Your task to perform on an android device: Search for the best custom wallets on Etsy. Image 0: 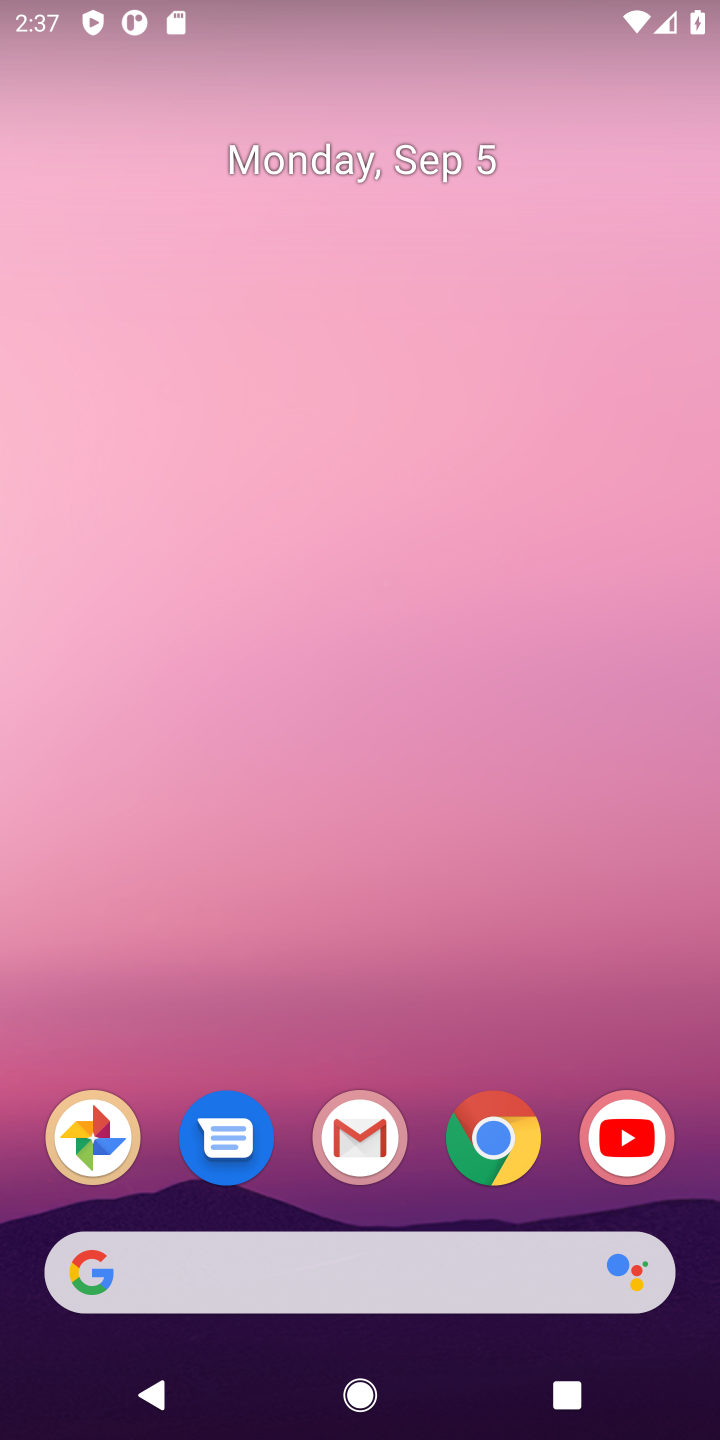
Step 0: click (474, 1146)
Your task to perform on an android device: Search for the best custom wallets on Etsy. Image 1: 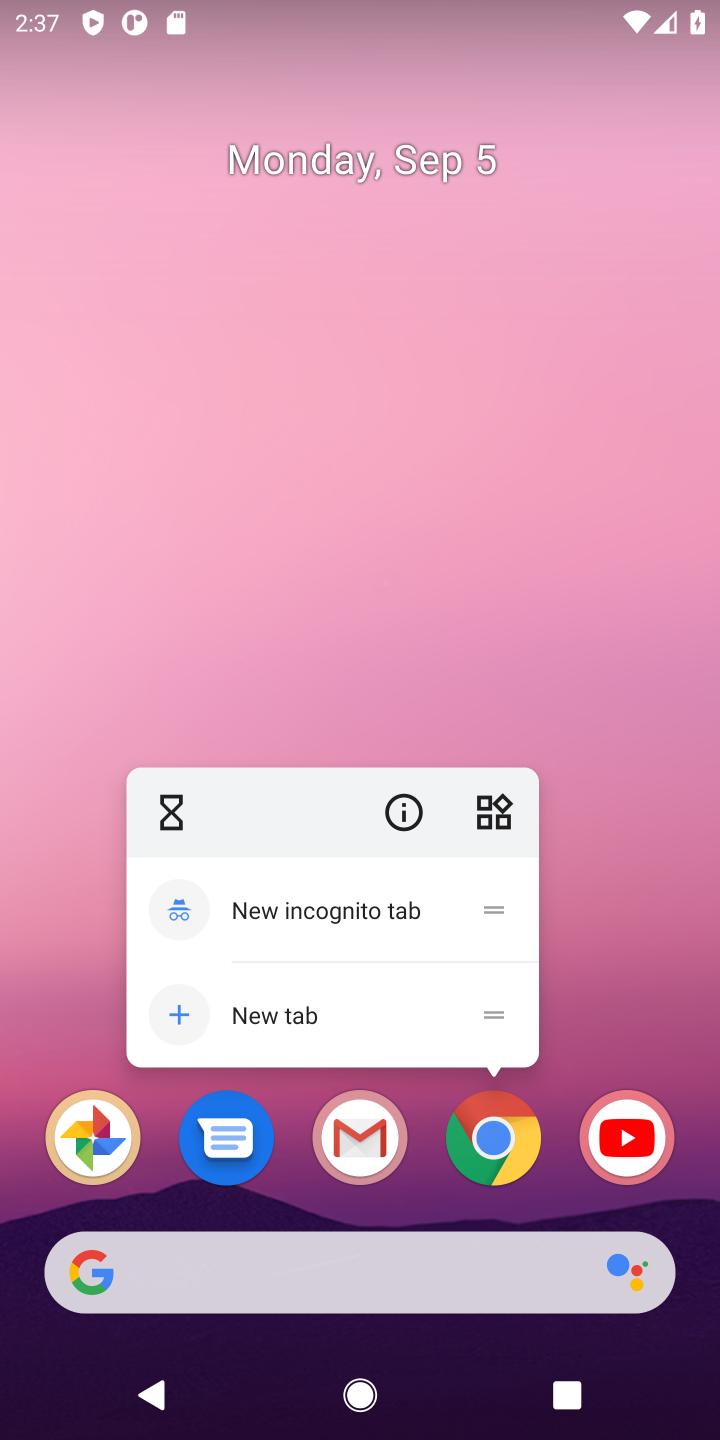
Step 1: click (496, 1156)
Your task to perform on an android device: Search for the best custom wallets on Etsy. Image 2: 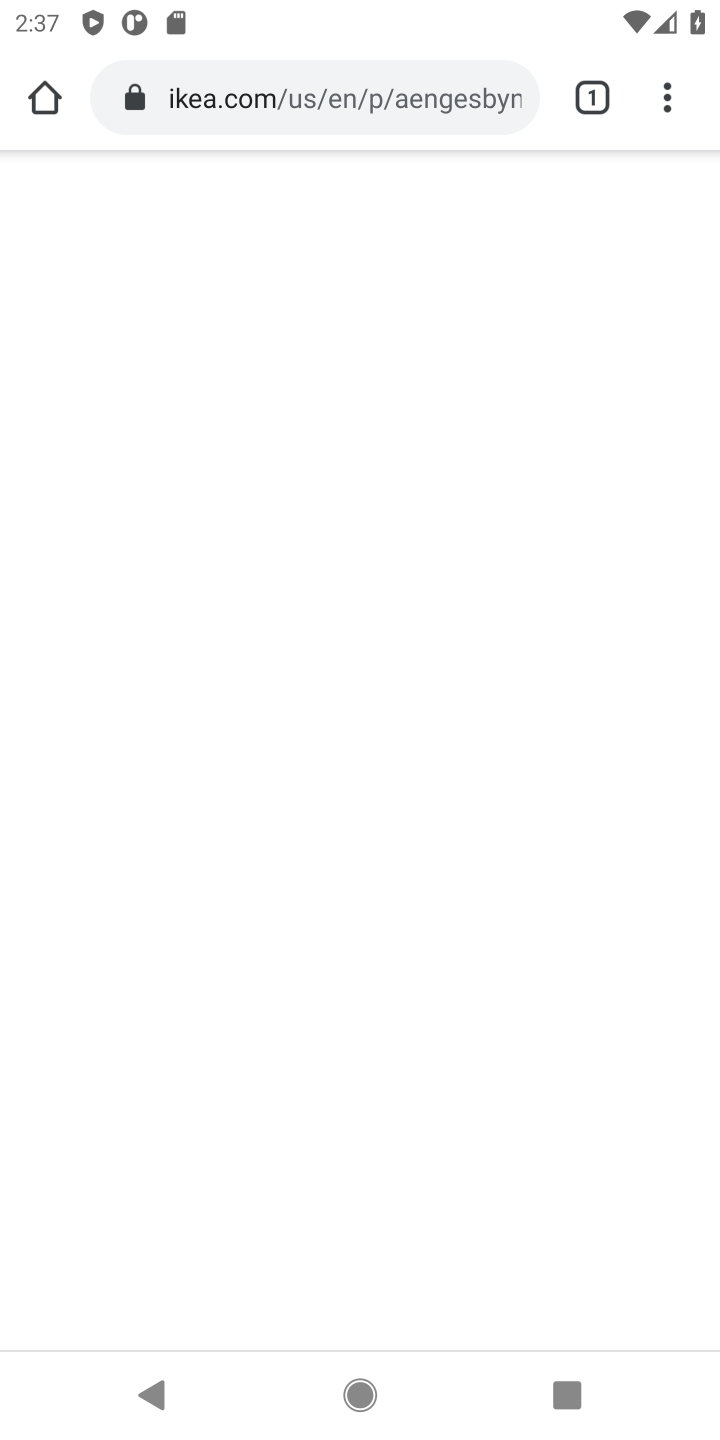
Step 2: click (366, 92)
Your task to perform on an android device: Search for the best custom wallets on Etsy. Image 3: 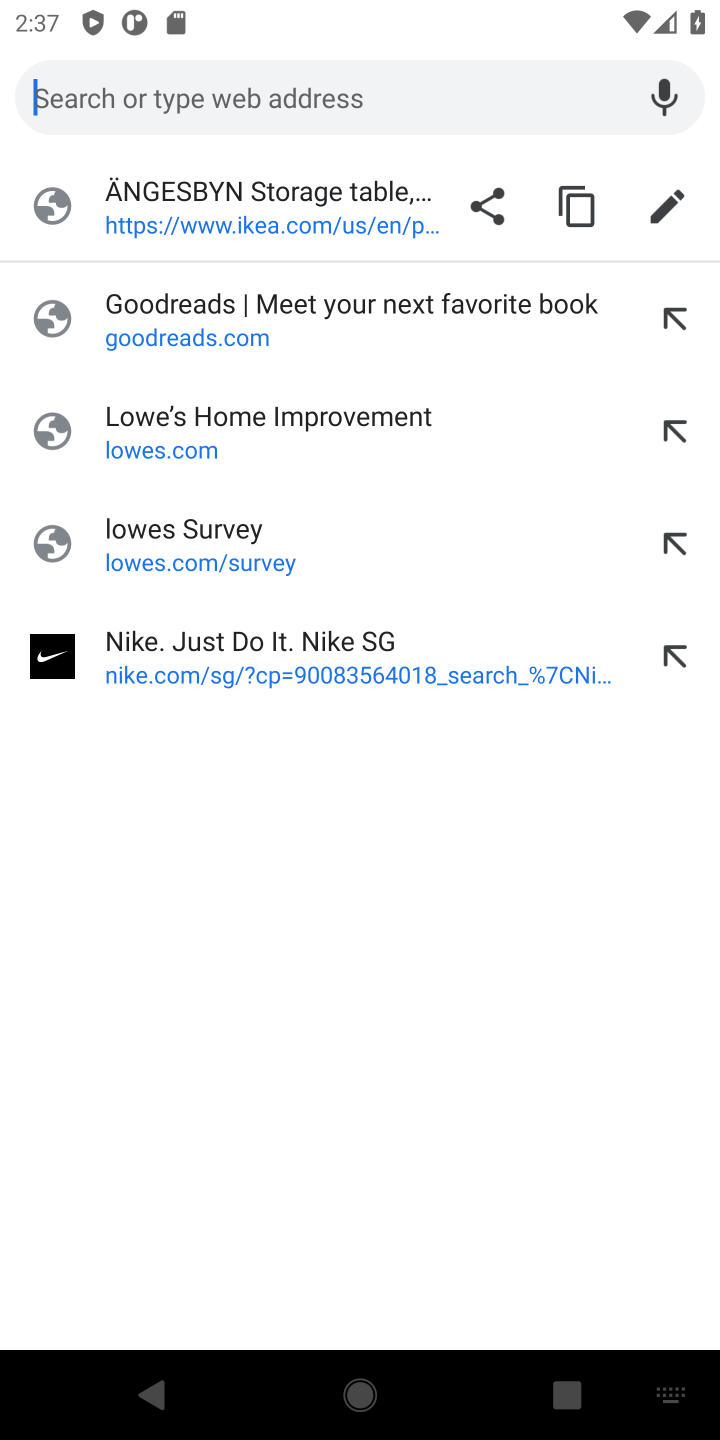
Step 3: type "etsy"
Your task to perform on an android device: Search for the best custom wallets on Etsy. Image 4: 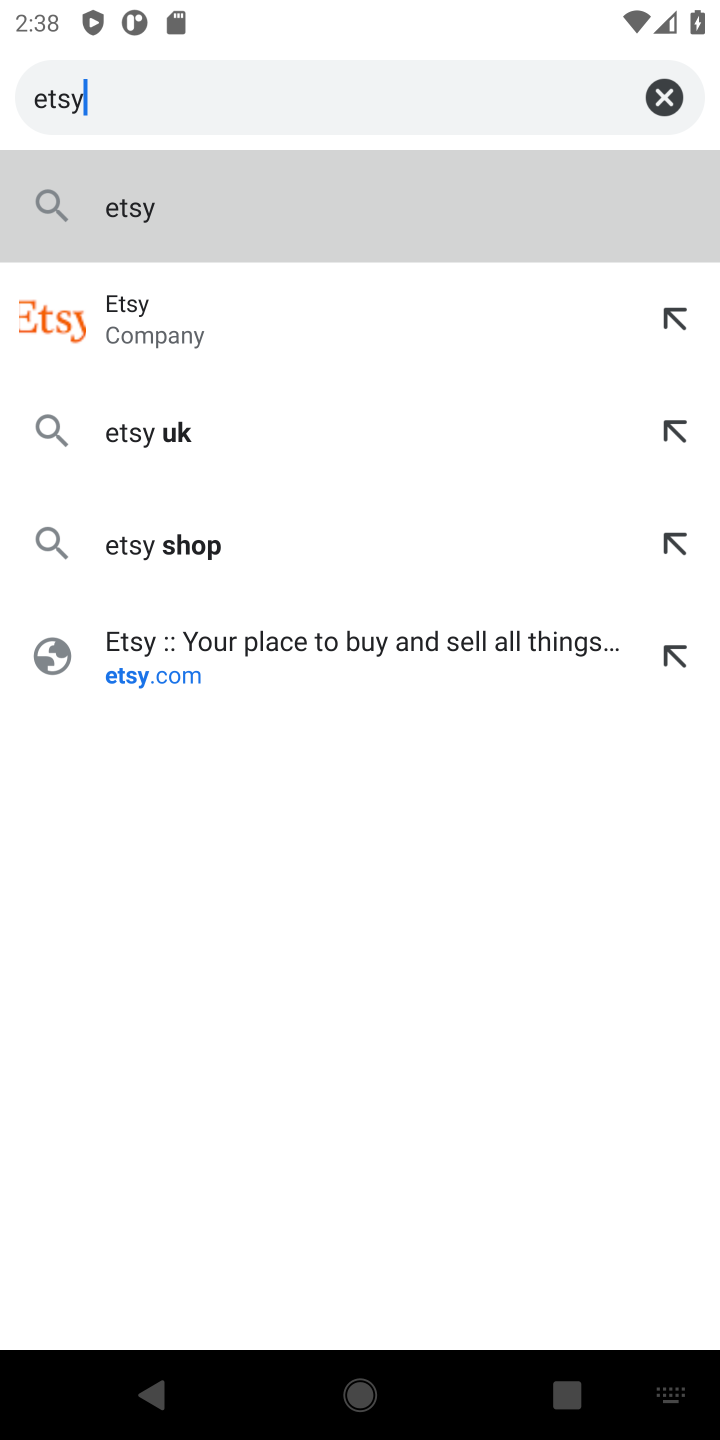
Step 4: type ""
Your task to perform on an android device: Search for the best custom wallets on Etsy. Image 5: 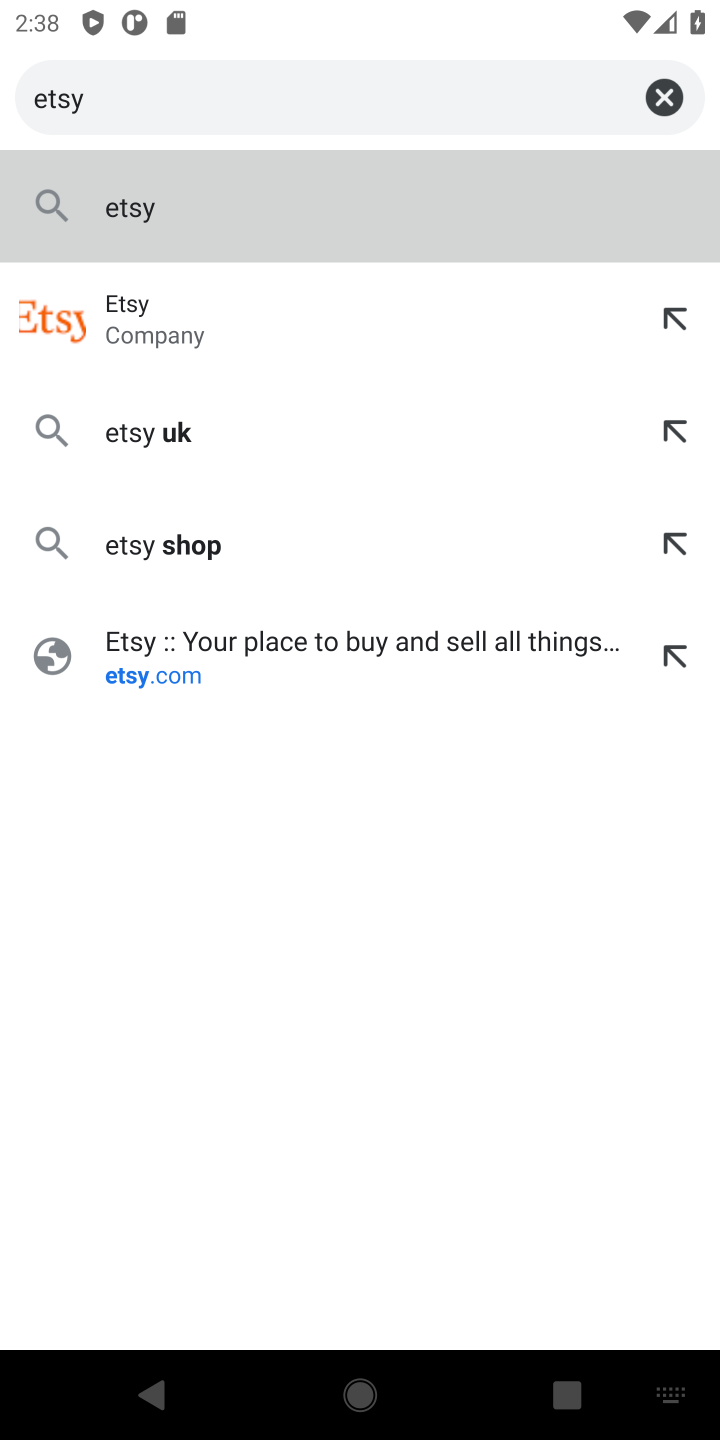
Step 5: click (171, 346)
Your task to perform on an android device: Search for the best custom wallets on Etsy. Image 6: 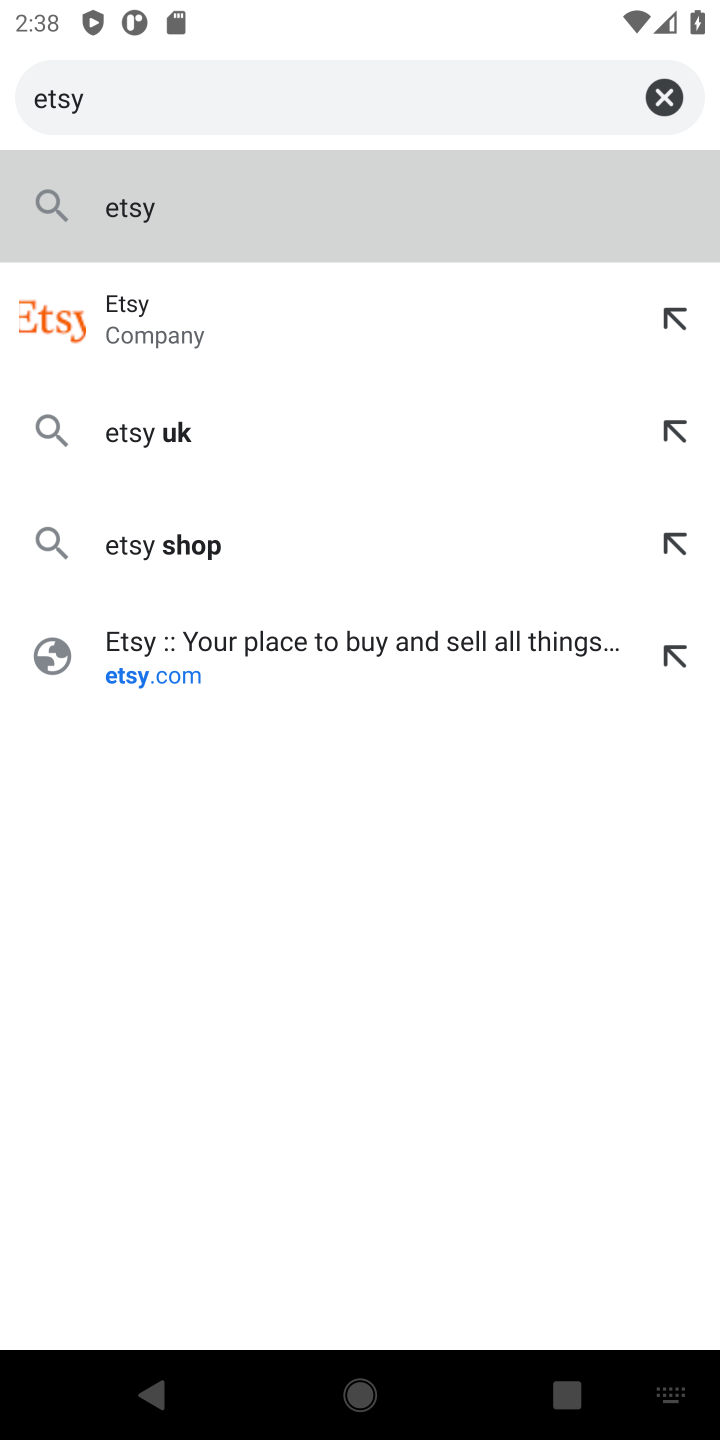
Step 6: click (192, 340)
Your task to perform on an android device: Search for the best custom wallets on Etsy. Image 7: 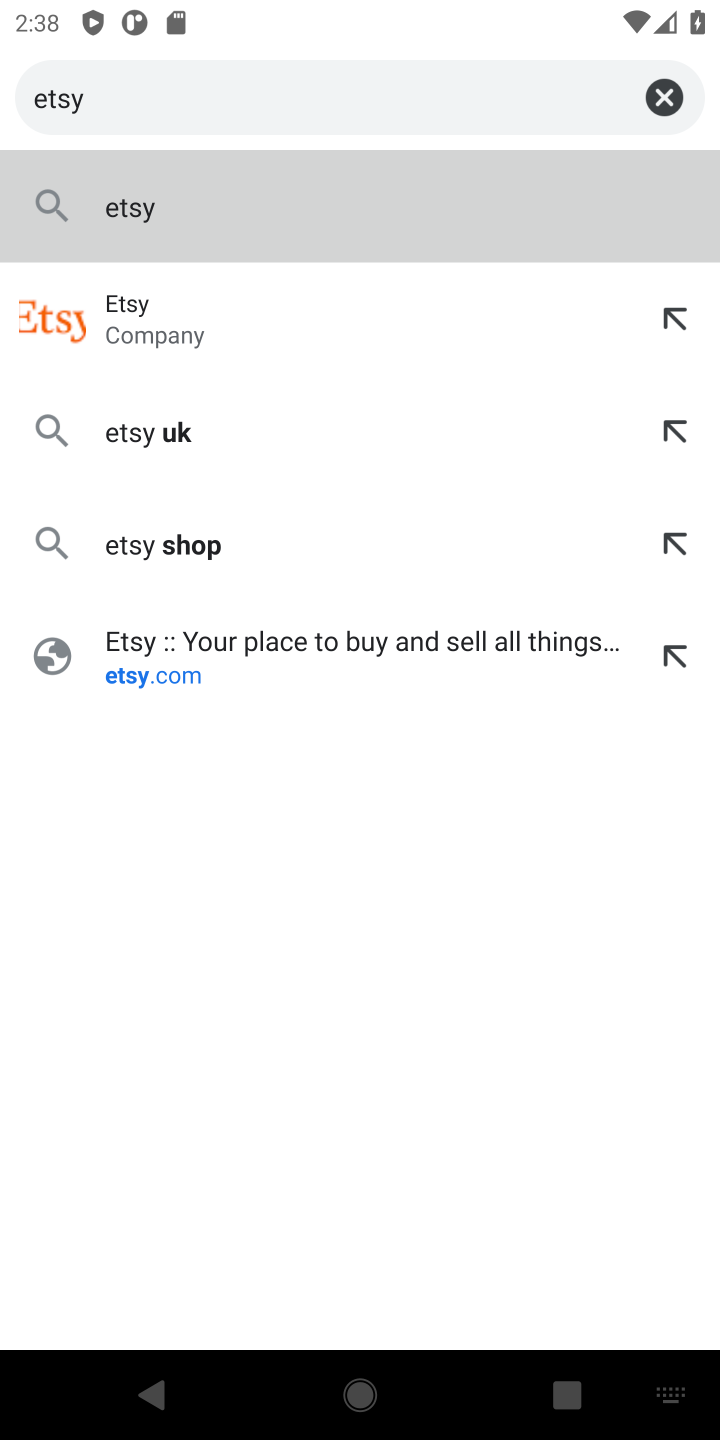
Step 7: click (96, 277)
Your task to perform on an android device: Search for the best custom wallets on Etsy. Image 8: 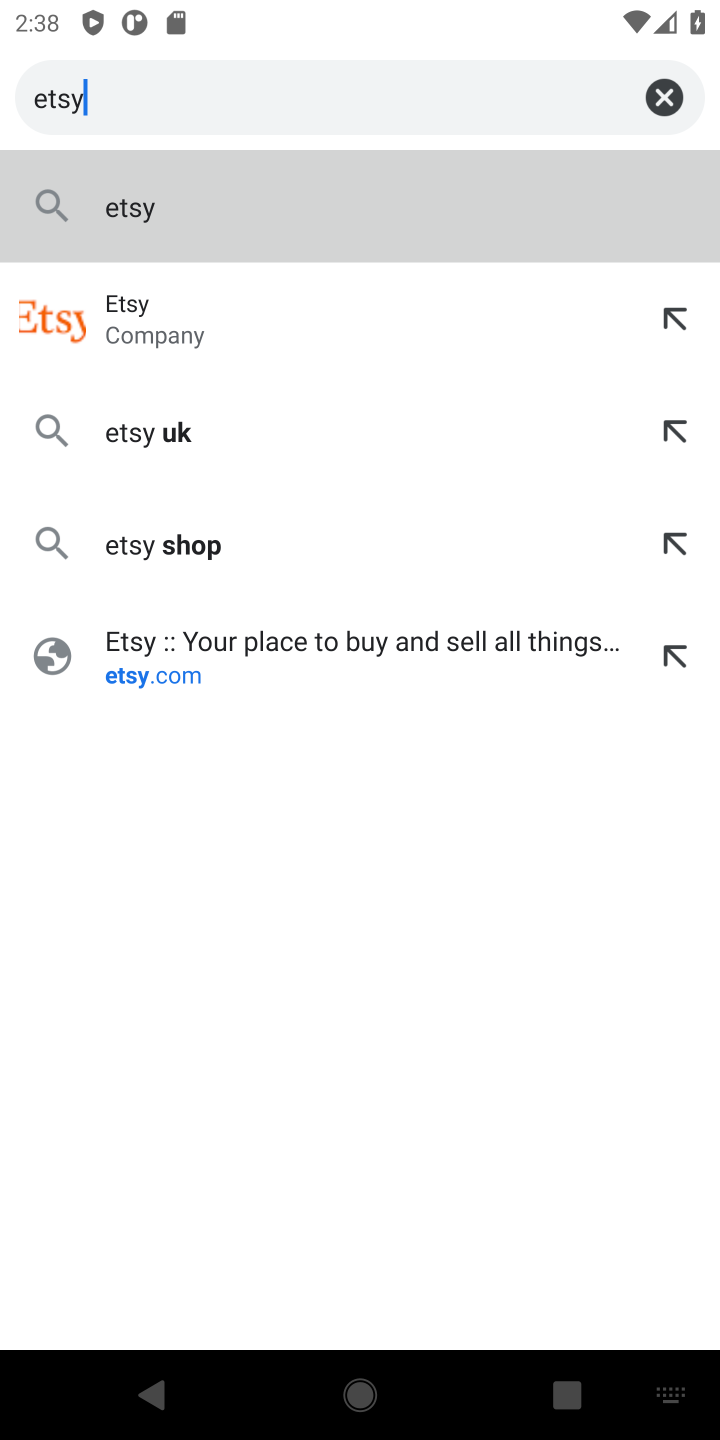
Step 8: click (60, 334)
Your task to perform on an android device: Search for the best custom wallets on Etsy. Image 9: 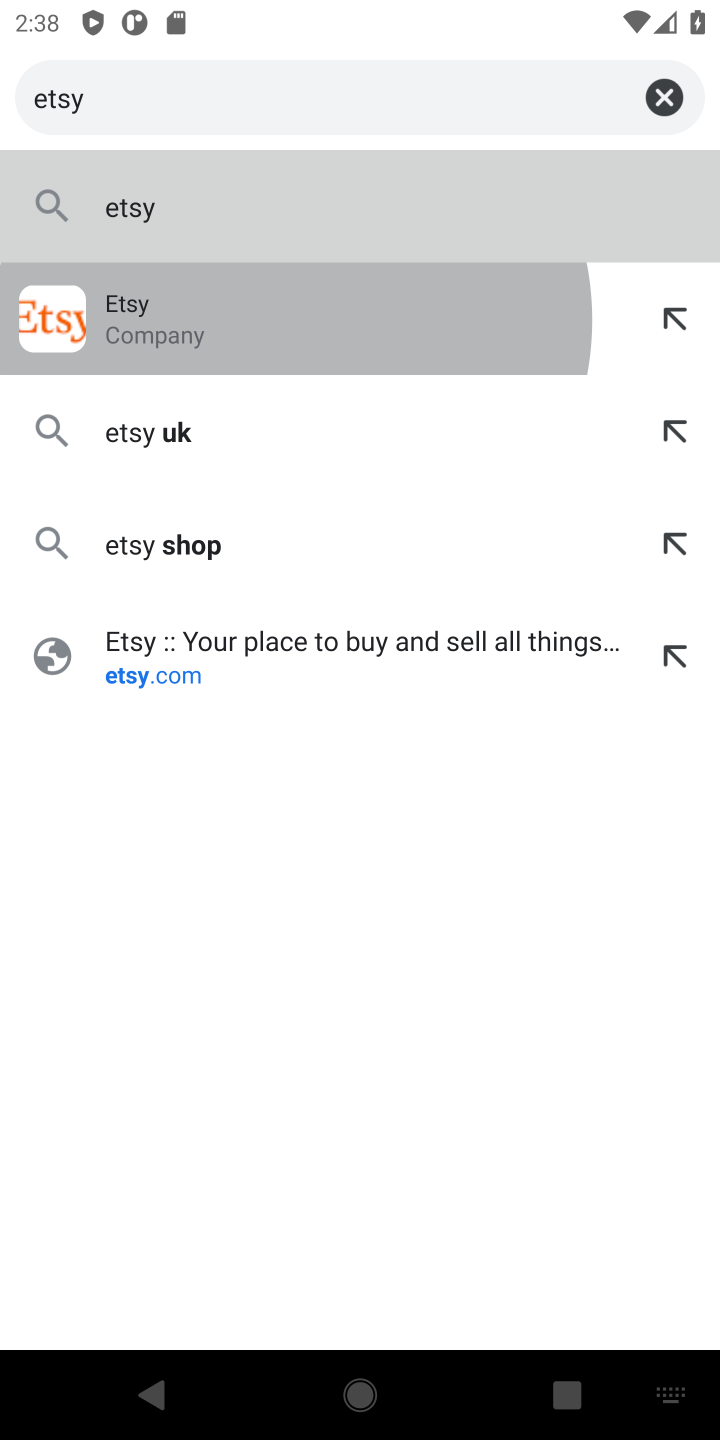
Step 9: click (103, 332)
Your task to perform on an android device: Search for the best custom wallets on Etsy. Image 10: 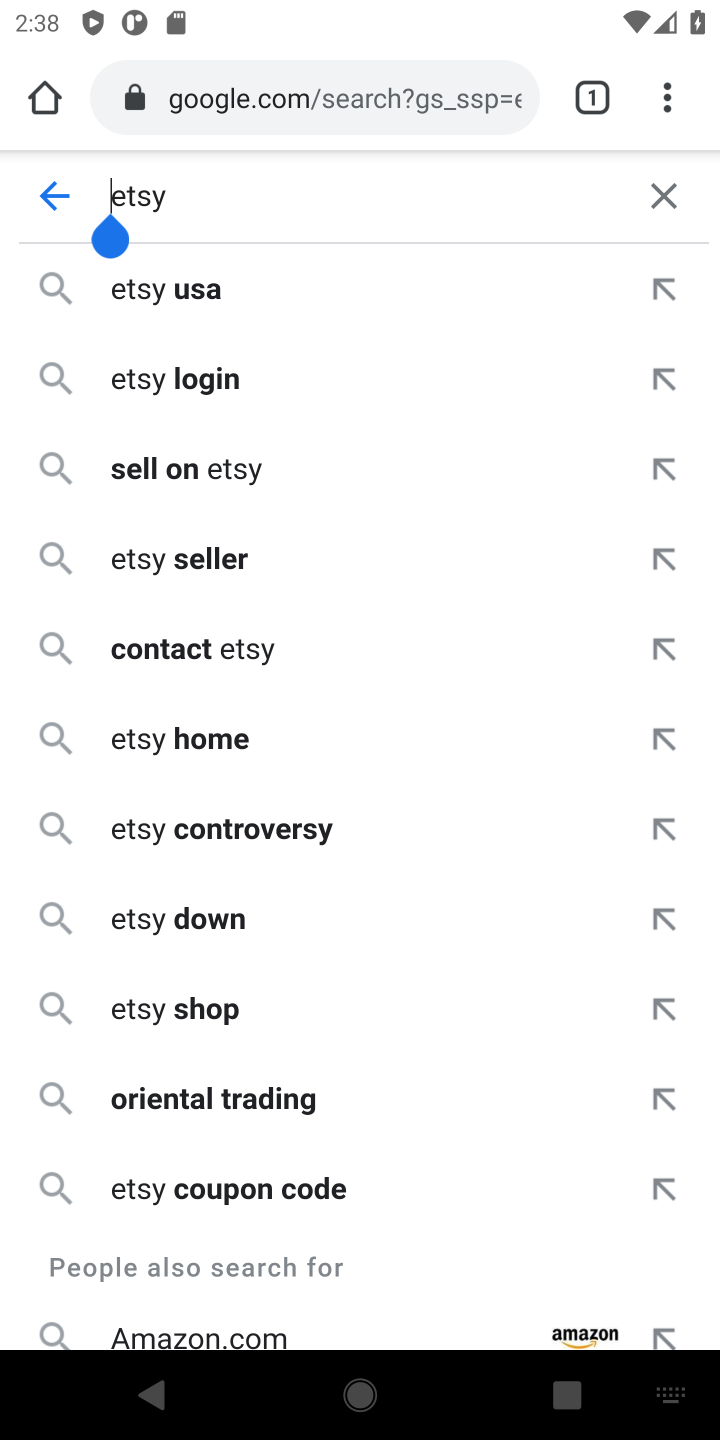
Step 10: drag from (649, 1036) to (605, 832)
Your task to perform on an android device: Search for the best custom wallets on Etsy. Image 11: 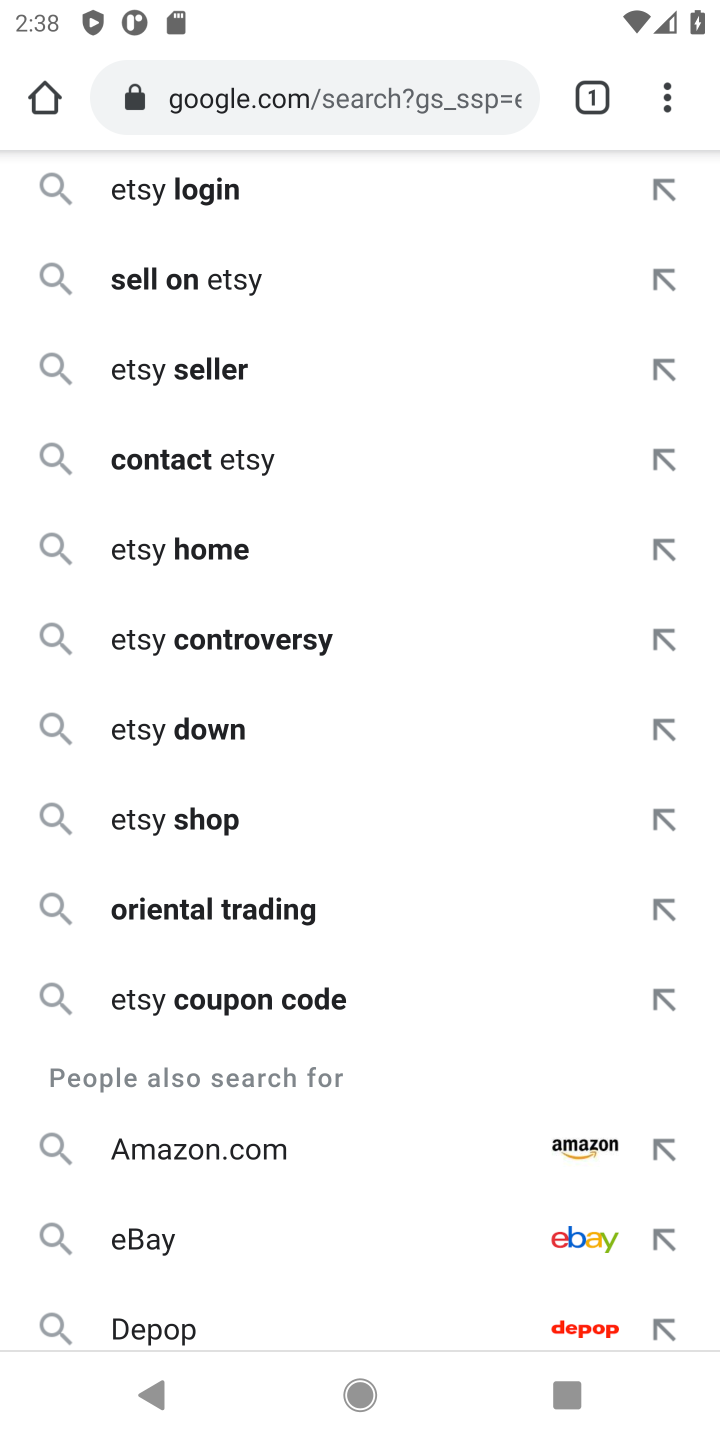
Step 11: drag from (593, 859) to (546, 253)
Your task to perform on an android device: Search for the best custom wallets on Etsy. Image 12: 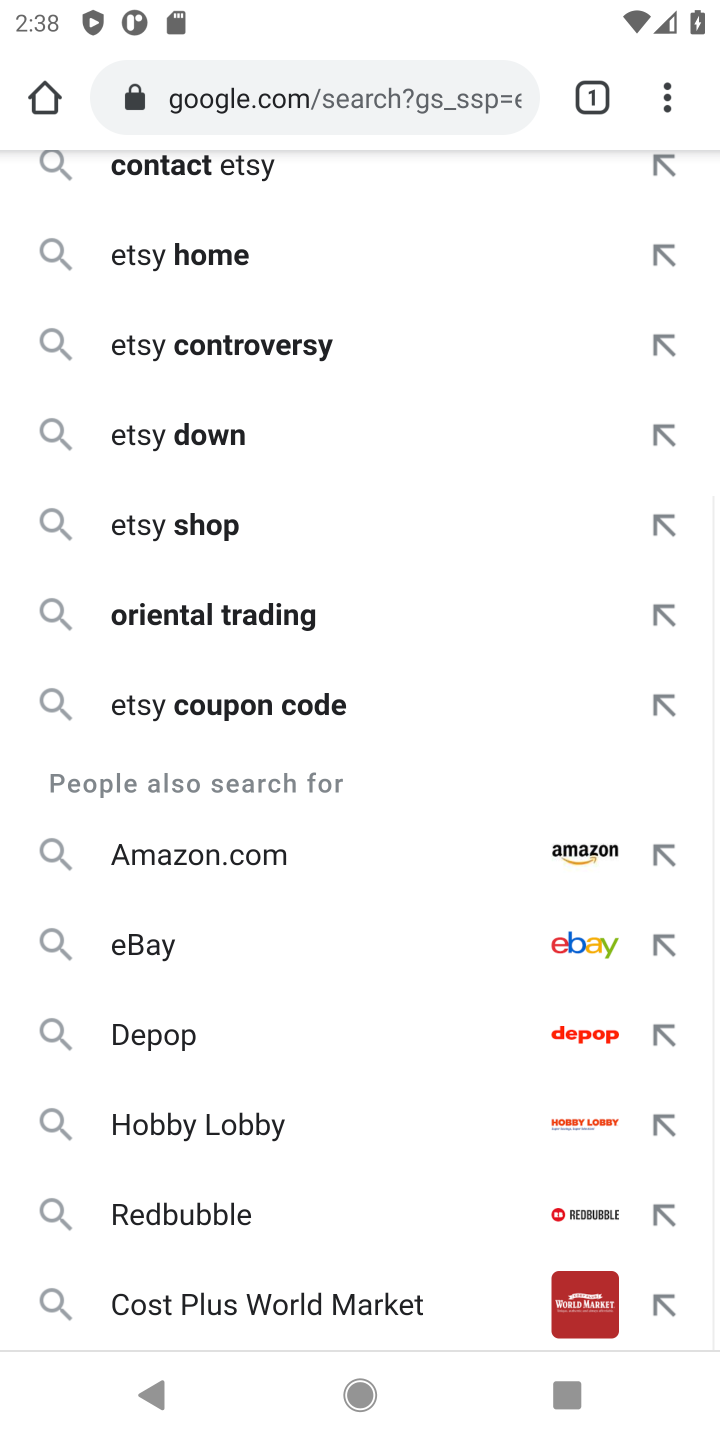
Step 12: drag from (534, 613) to (534, 330)
Your task to perform on an android device: Search for the best custom wallets on Etsy. Image 13: 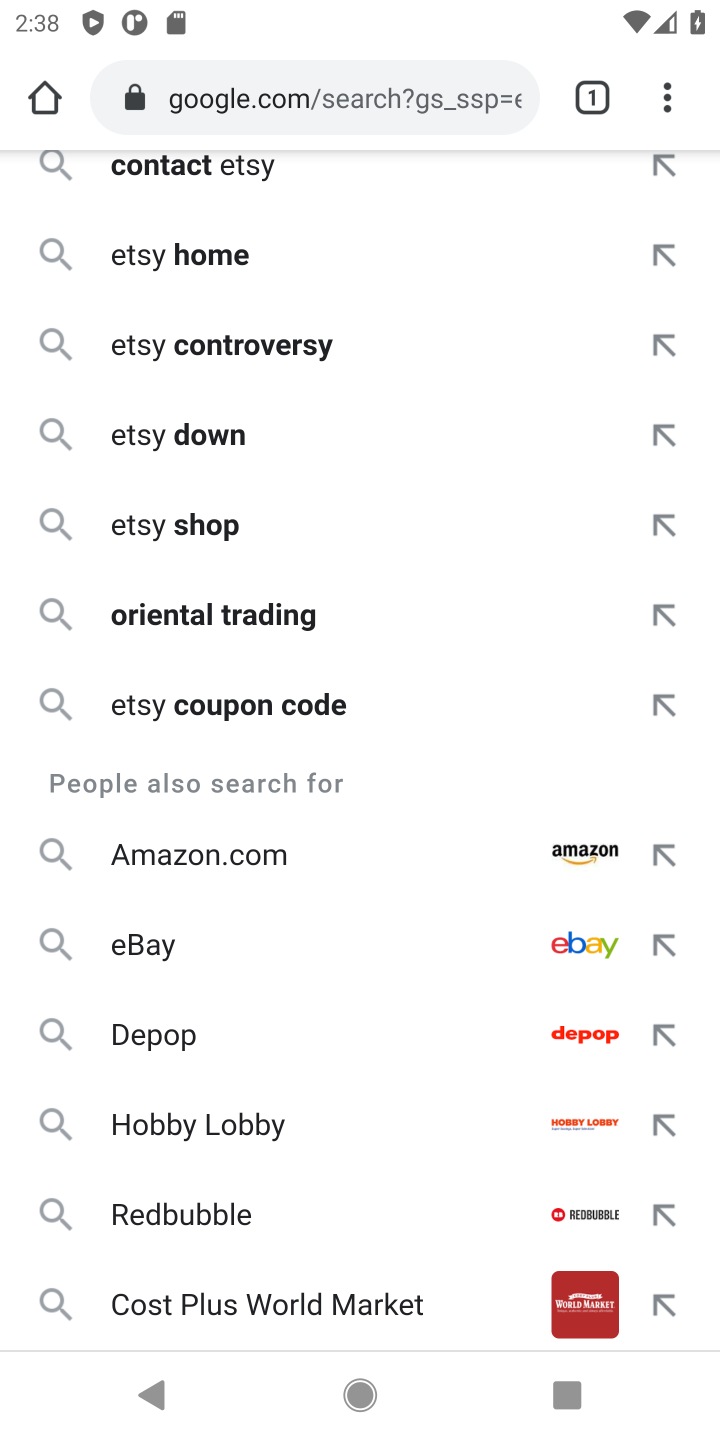
Step 13: drag from (478, 1061) to (560, 455)
Your task to perform on an android device: Search for the best custom wallets on Etsy. Image 14: 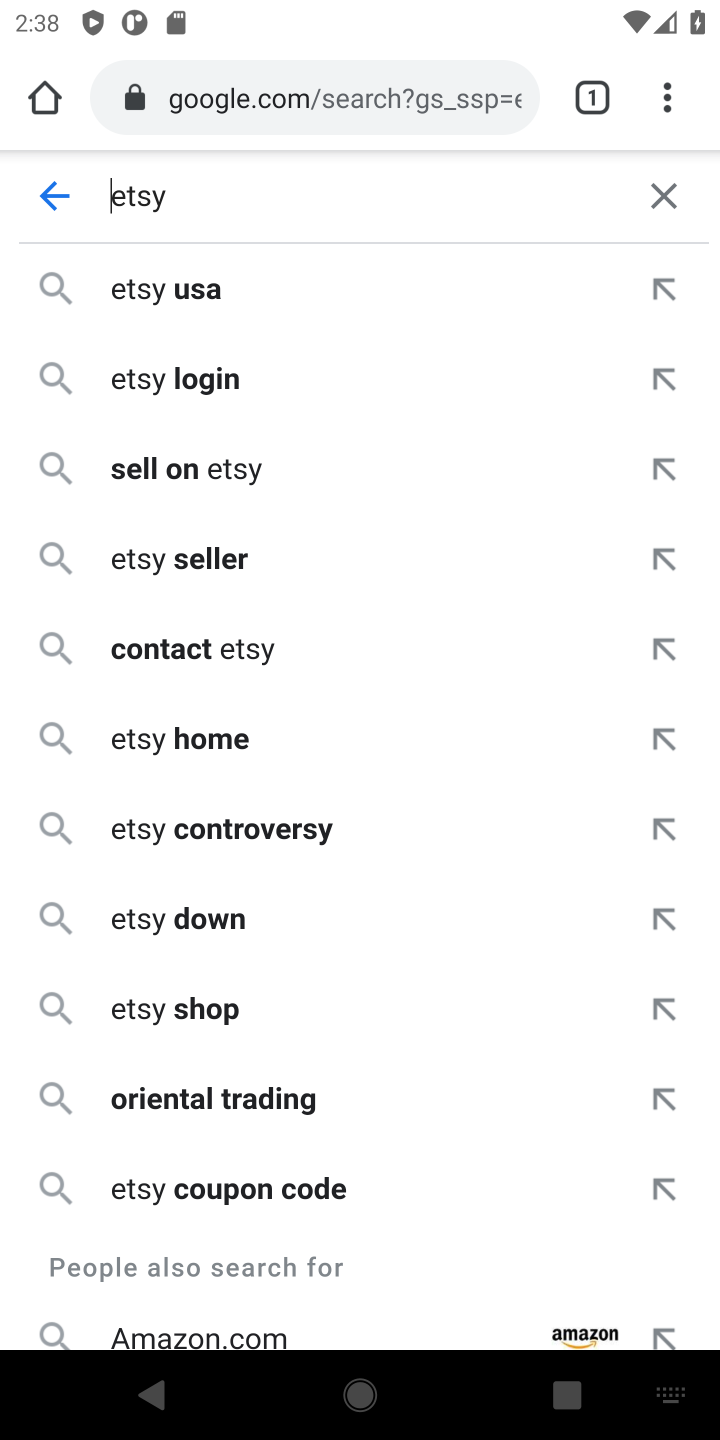
Step 14: click (528, 1104)
Your task to perform on an android device: Search for the best custom wallets on Etsy. Image 15: 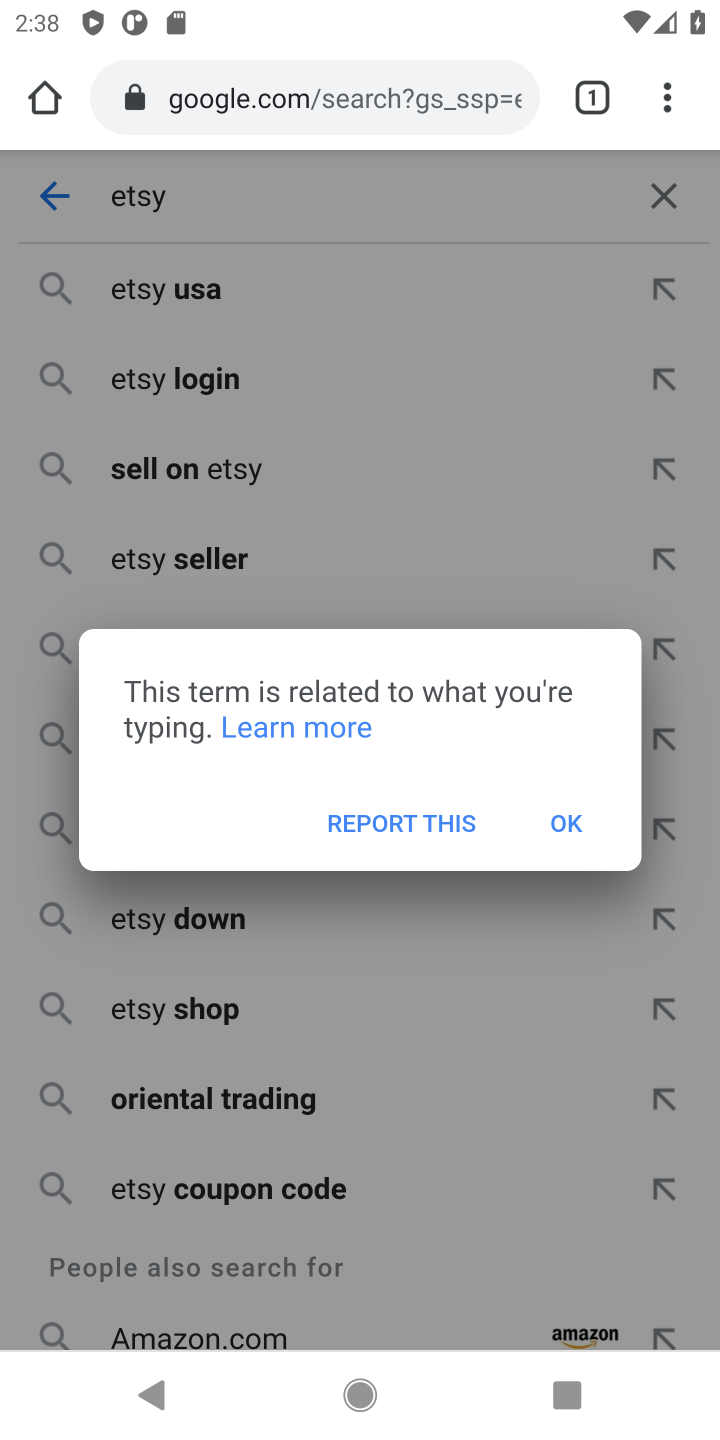
Step 15: click (558, 807)
Your task to perform on an android device: Search for the best custom wallets on Etsy. Image 16: 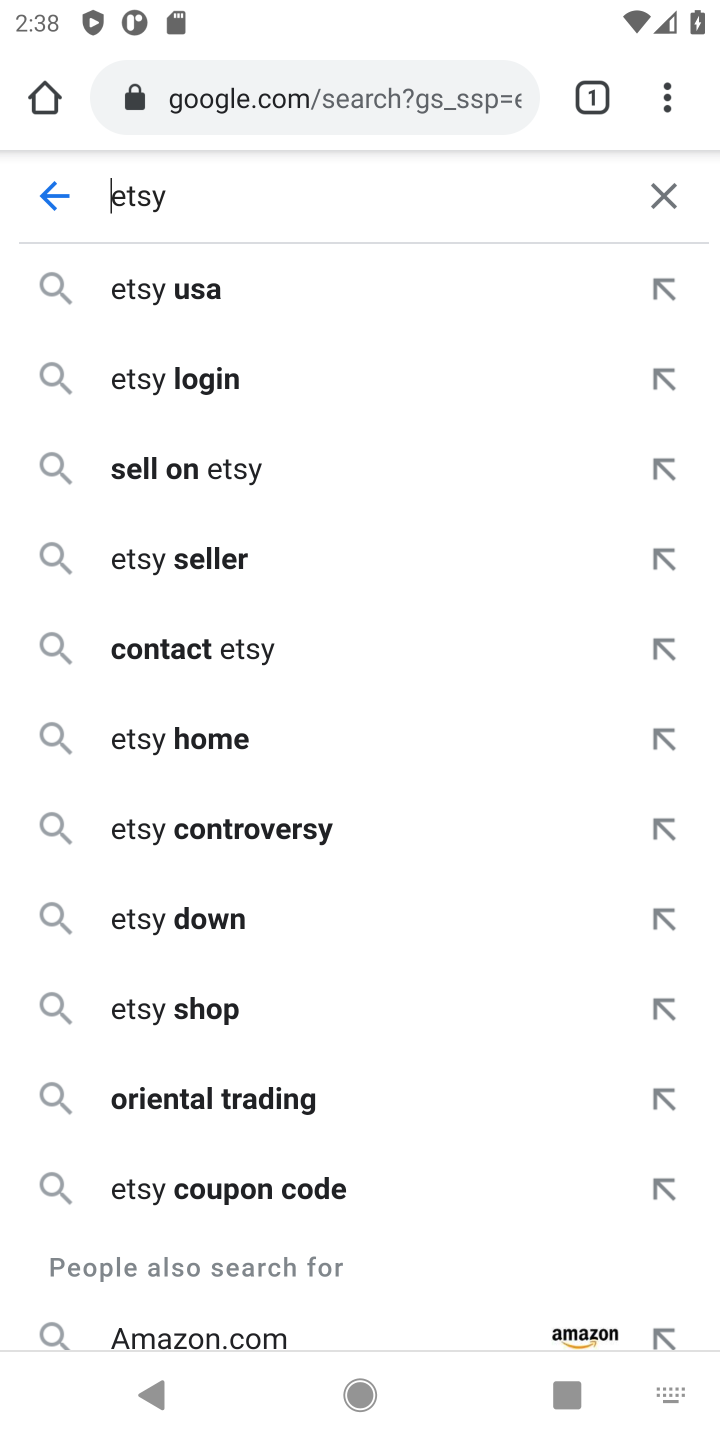
Step 16: click (119, 190)
Your task to perform on an android device: Search for the best custom wallets on Etsy. Image 17: 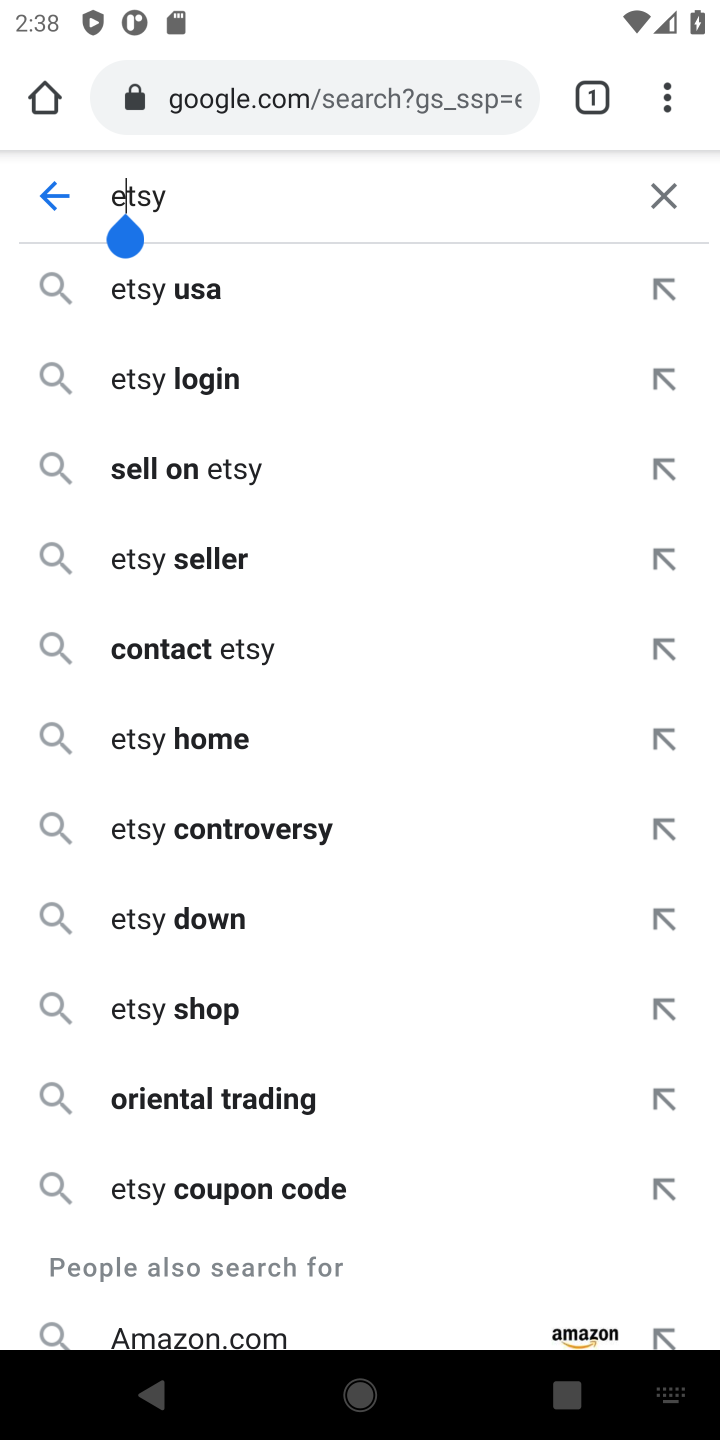
Step 17: click (180, 190)
Your task to perform on an android device: Search for the best custom wallets on Etsy. Image 18: 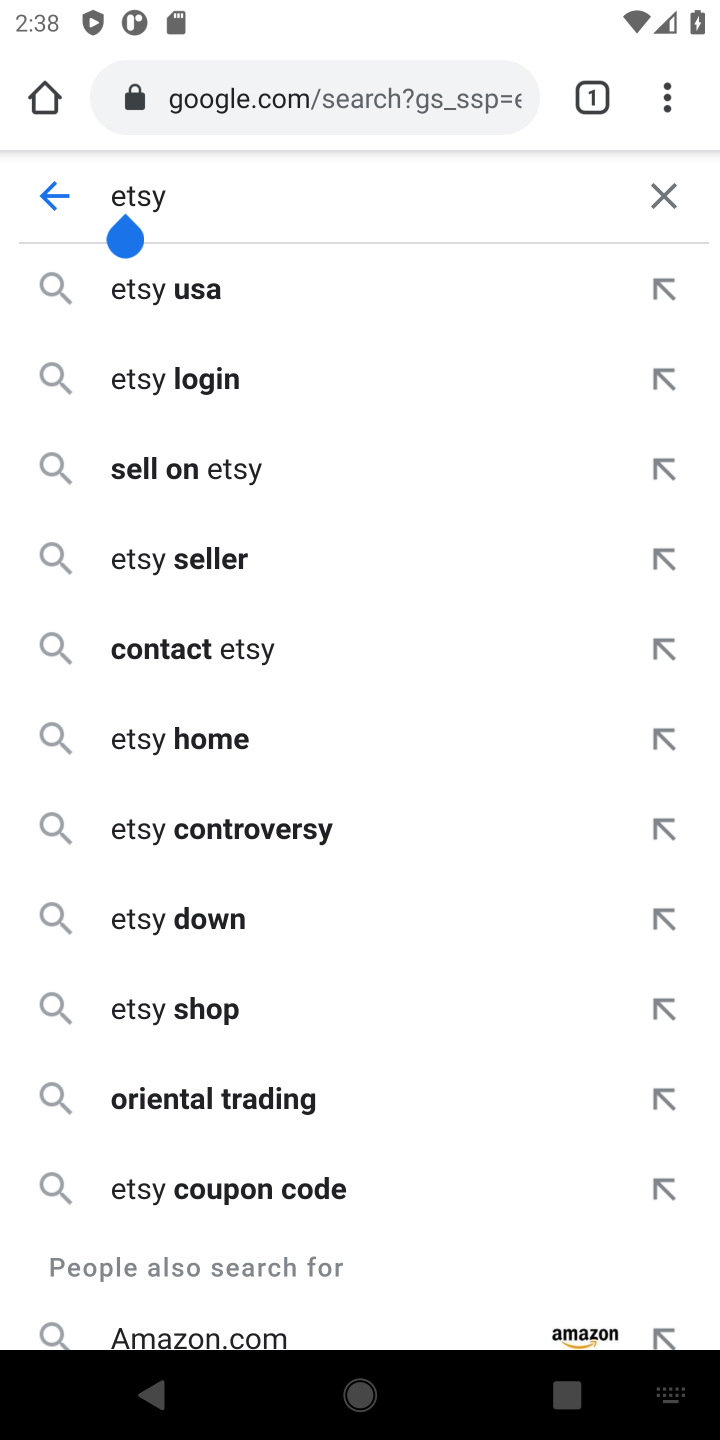
Step 18: click (216, 203)
Your task to perform on an android device: Search for the best custom wallets on Etsy. Image 19: 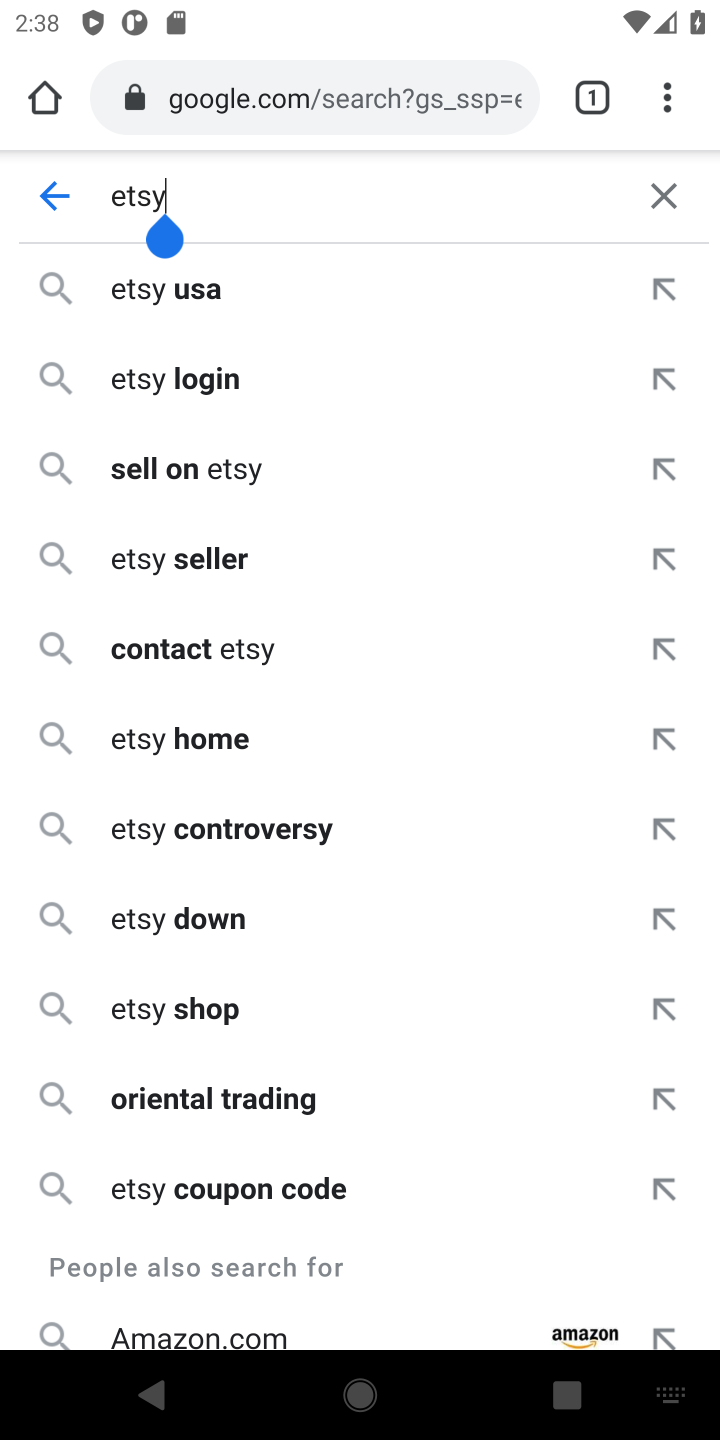
Step 19: click (210, 210)
Your task to perform on an android device: Search for the best custom wallets on Etsy. Image 20: 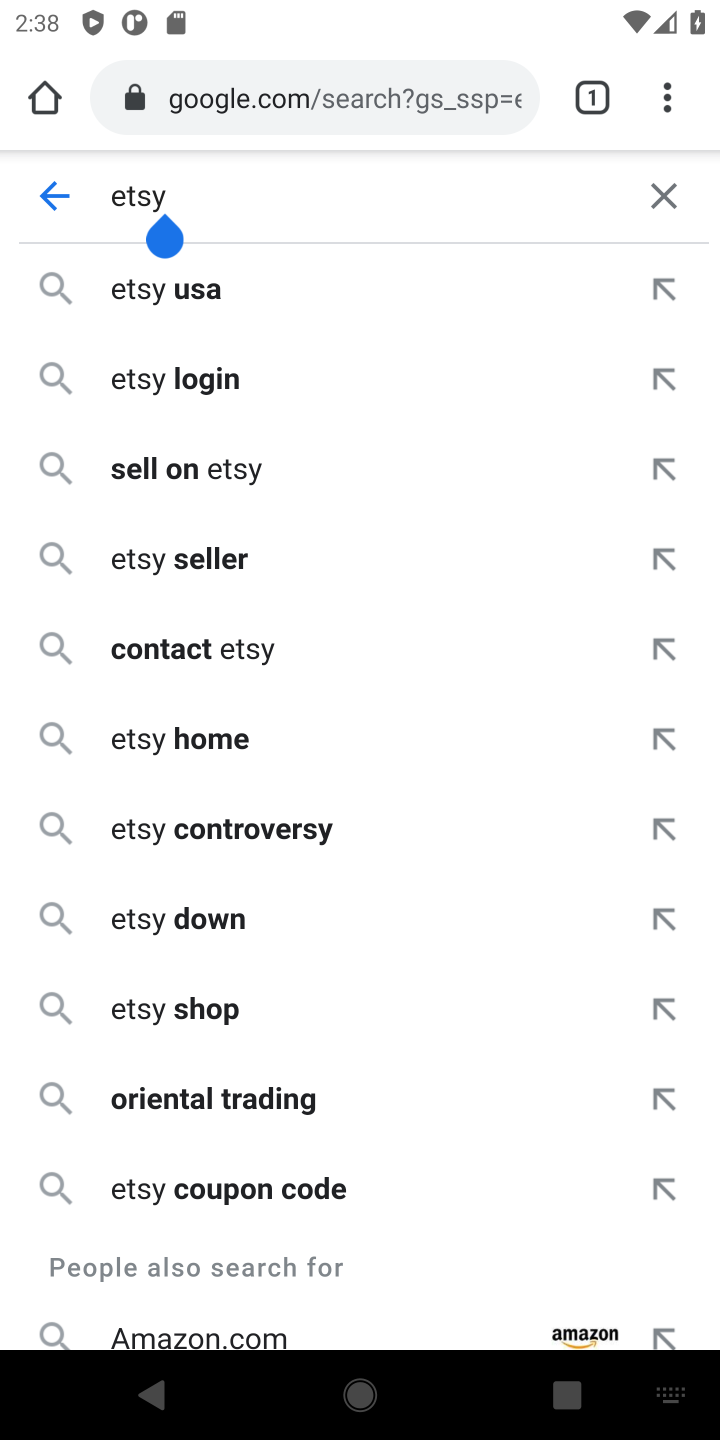
Step 20: press back button
Your task to perform on an android device: Search for the best custom wallets on Etsy. Image 21: 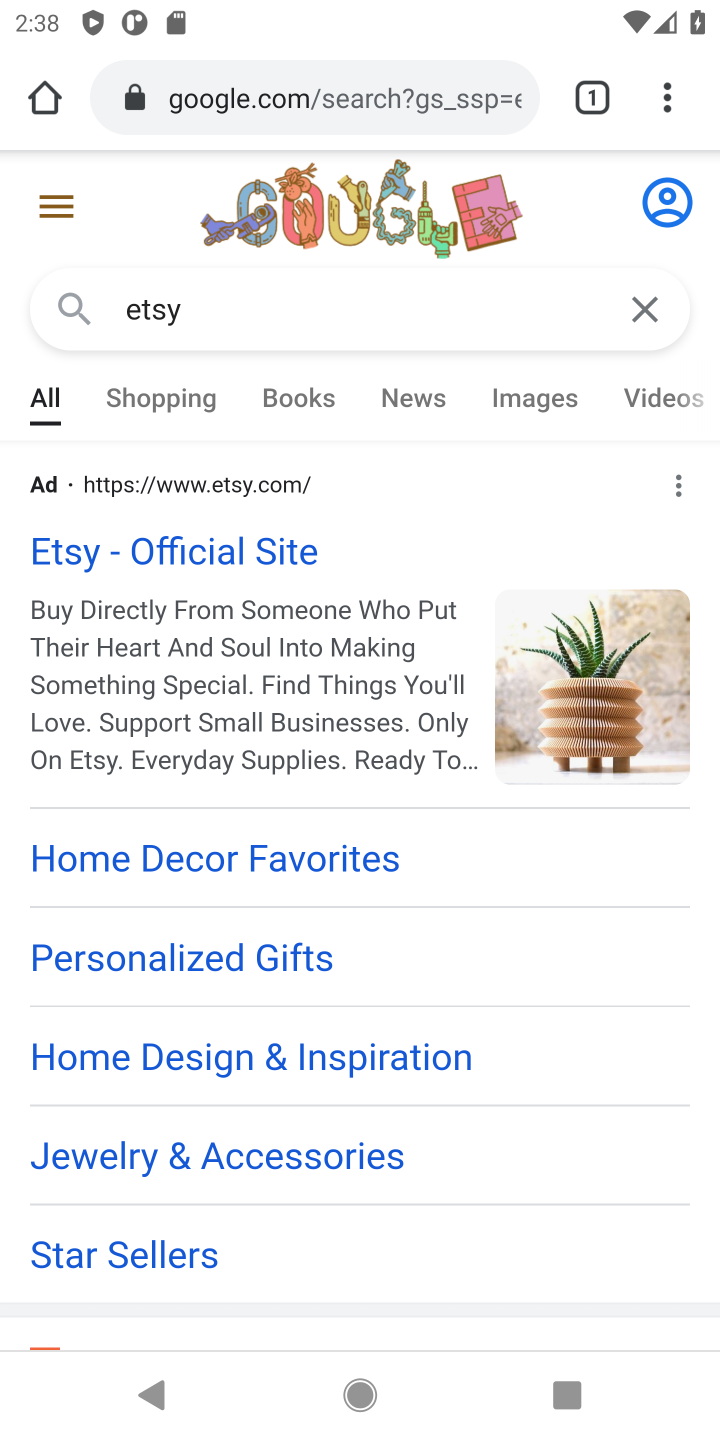
Step 21: drag from (697, 975) to (710, 1137)
Your task to perform on an android device: Search for the best custom wallets on Etsy. Image 22: 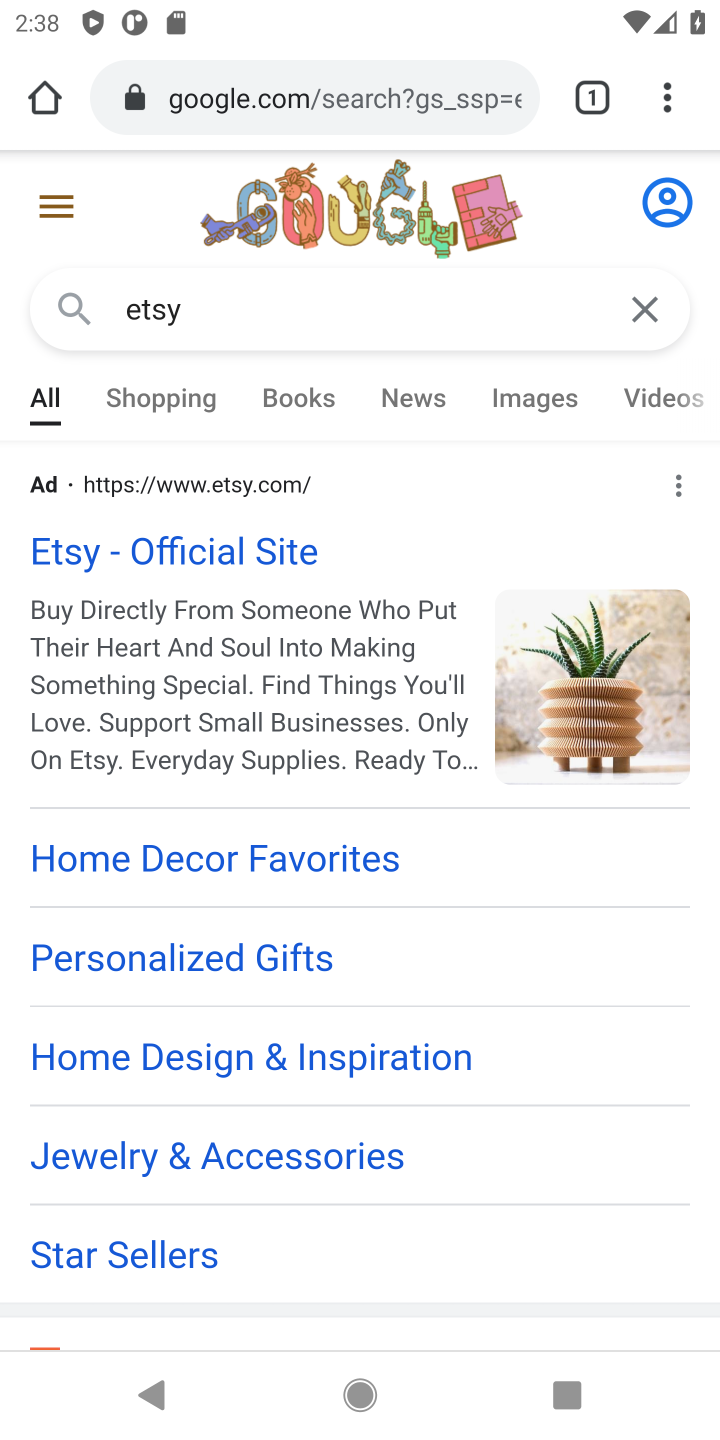
Step 22: drag from (663, 1152) to (626, 363)
Your task to perform on an android device: Search for the best custom wallets on Etsy. Image 23: 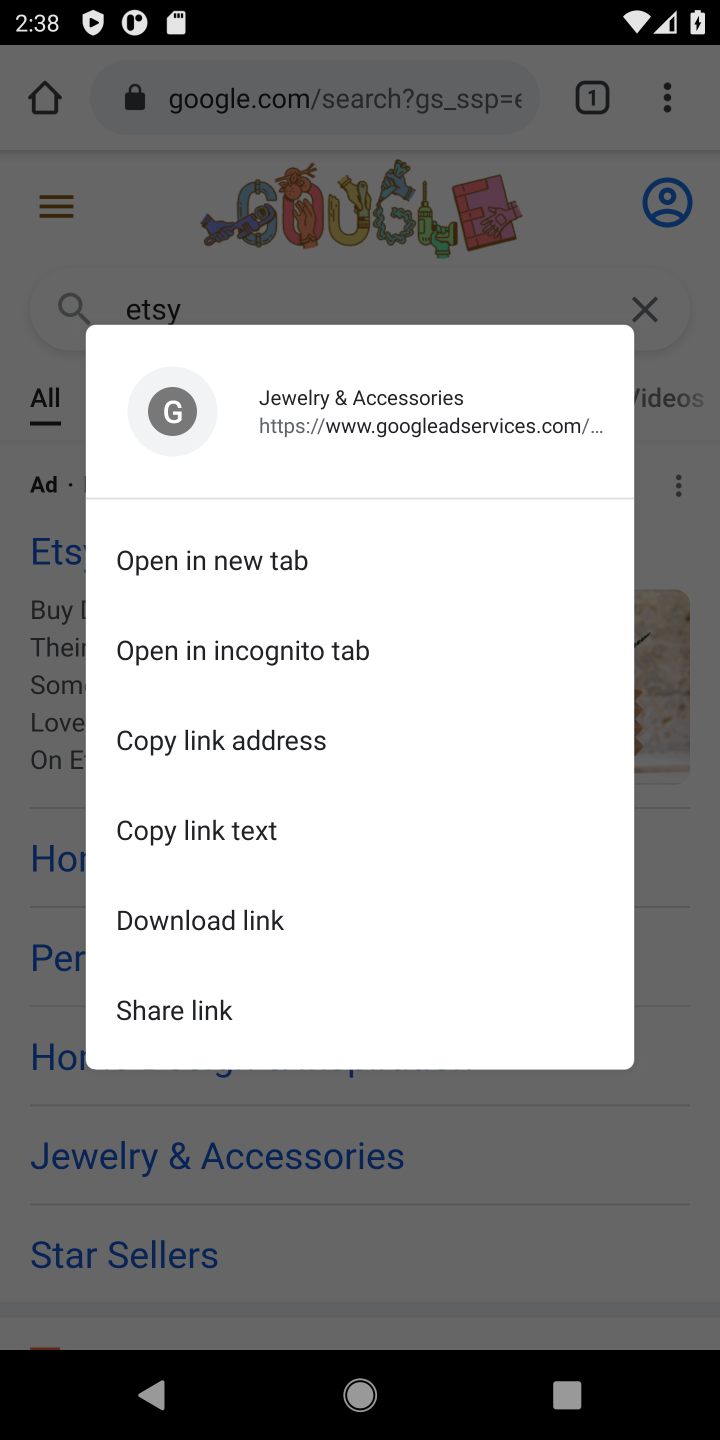
Step 23: click (693, 1119)
Your task to perform on an android device: Search for the best custom wallets on Etsy. Image 24: 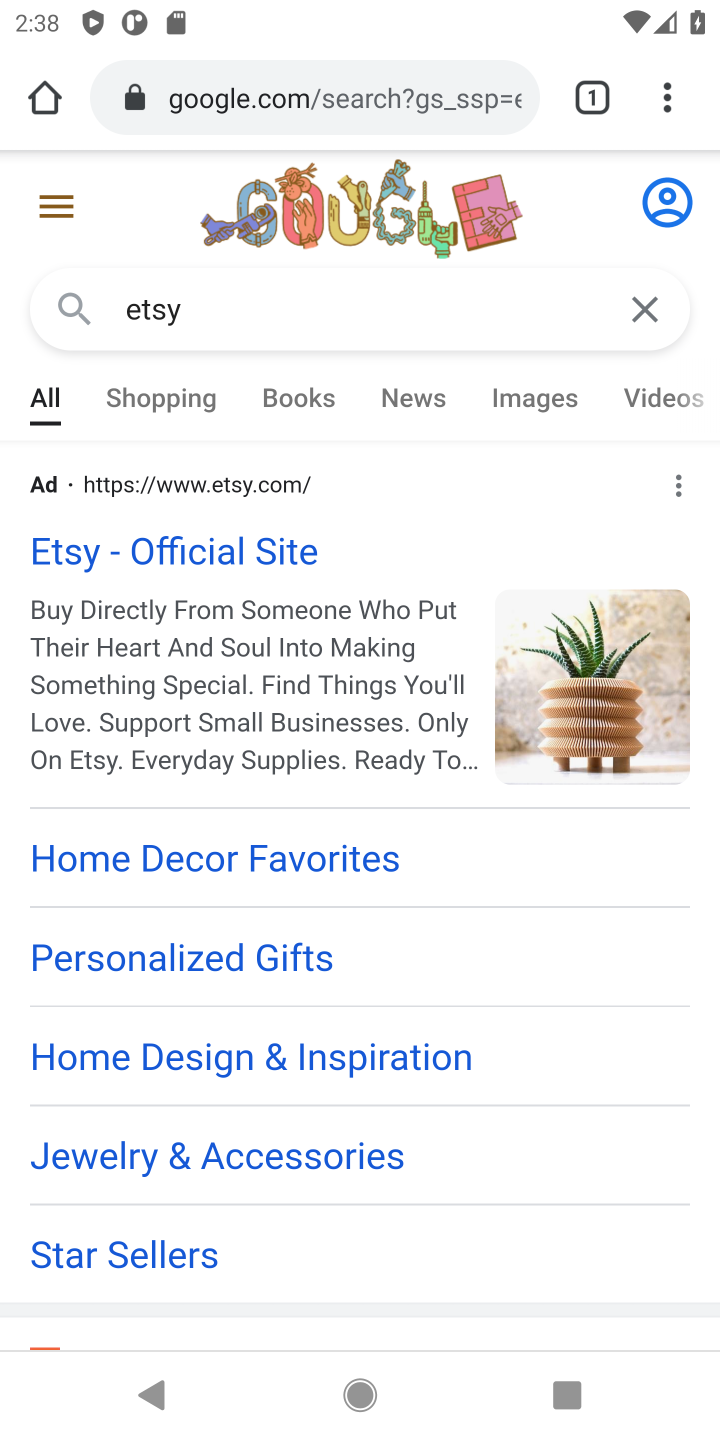
Step 24: click (664, 468)
Your task to perform on an android device: Search for the best custom wallets on Etsy. Image 25: 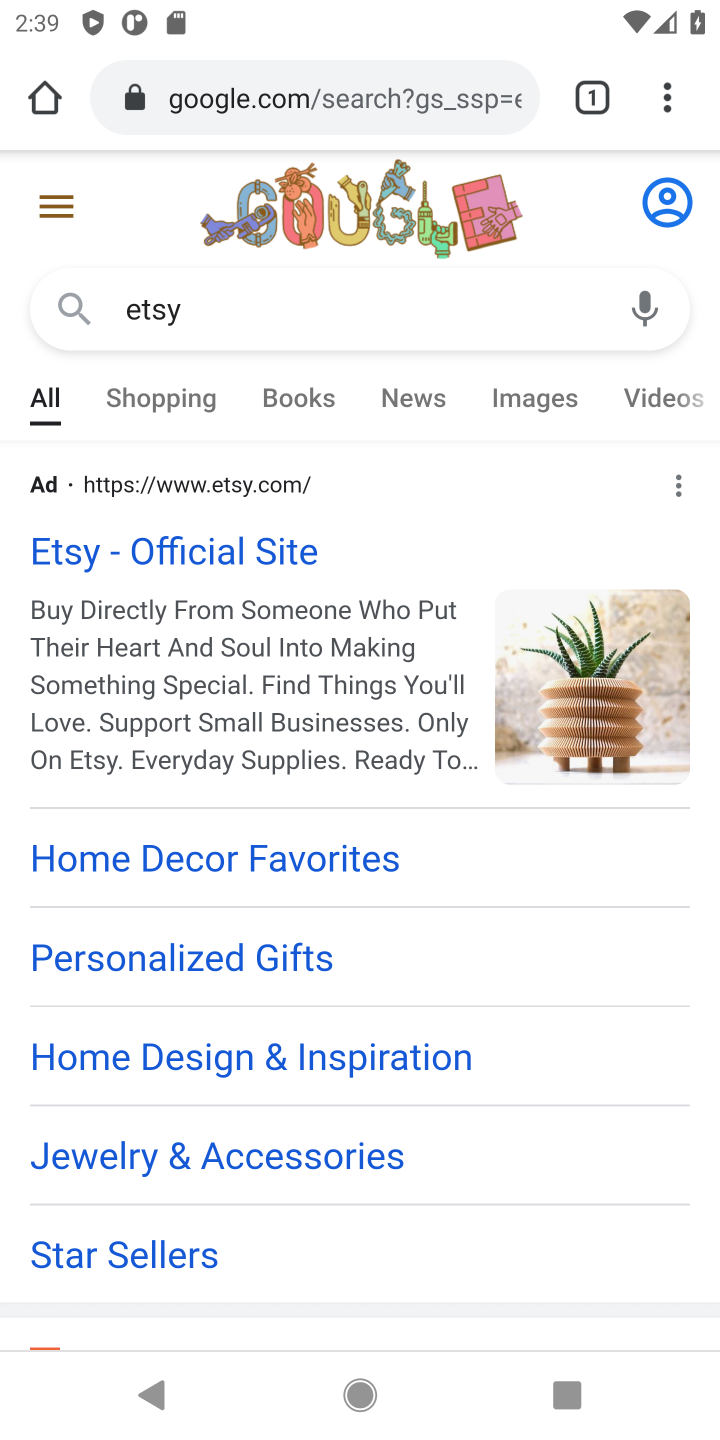
Step 25: drag from (308, 1208) to (334, 668)
Your task to perform on an android device: Search for the best custom wallets on Etsy. Image 26: 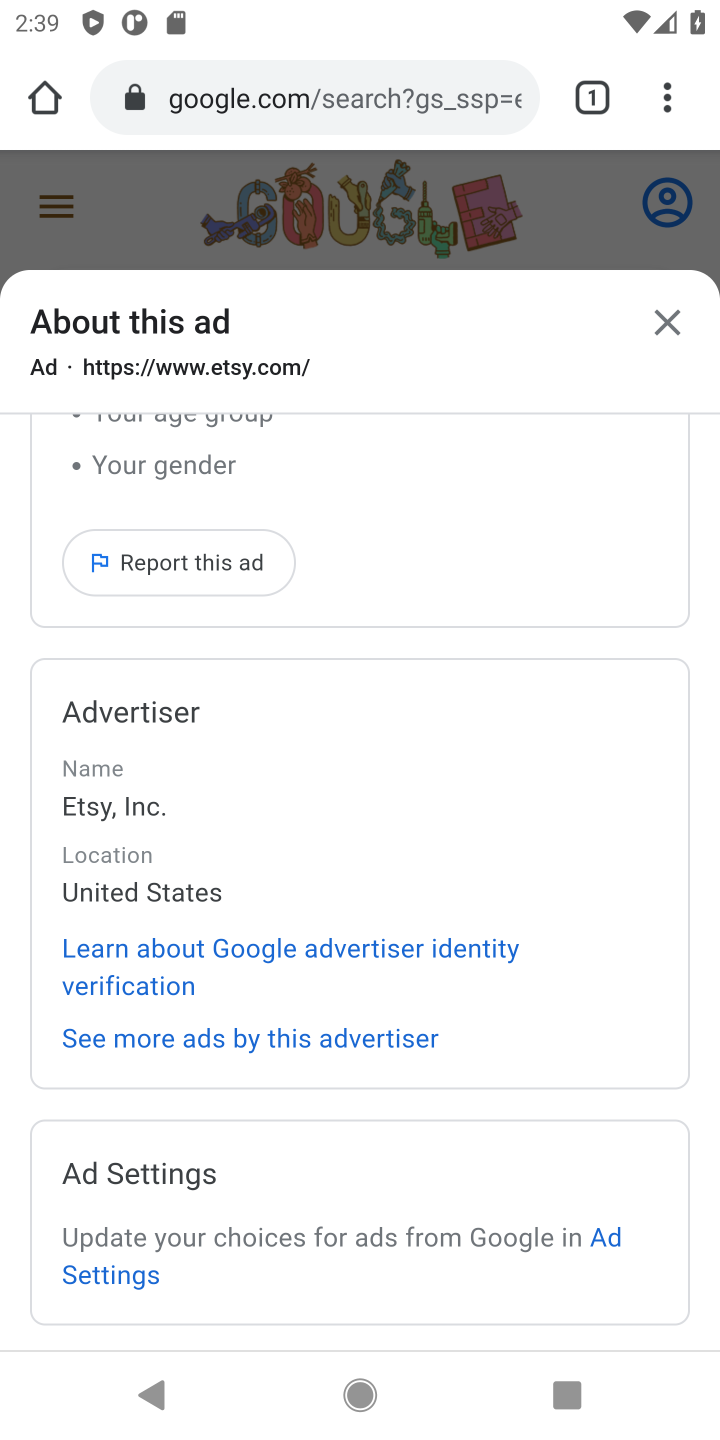
Step 26: click (671, 322)
Your task to perform on an android device: Search for the best custom wallets on Etsy. Image 27: 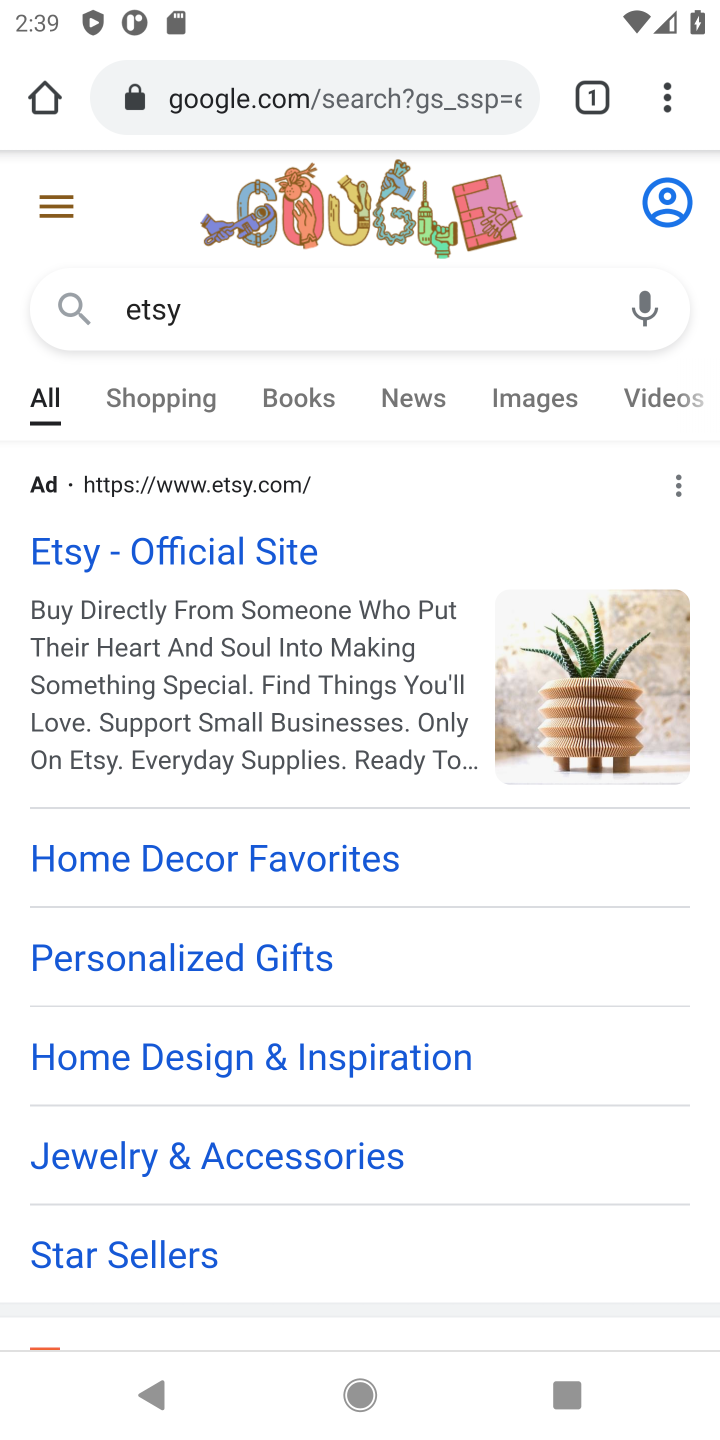
Step 27: drag from (510, 1118) to (540, 585)
Your task to perform on an android device: Search for the best custom wallets on Etsy. Image 28: 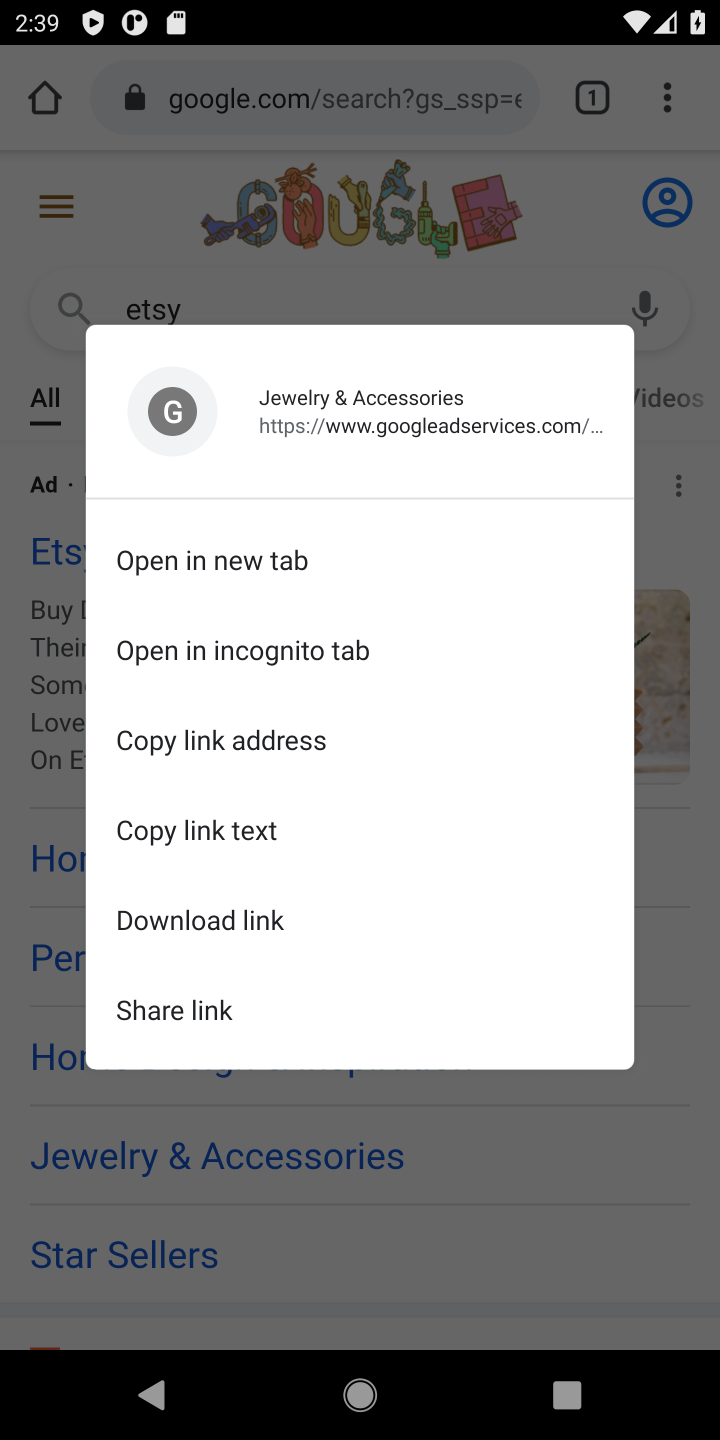
Step 28: click (694, 882)
Your task to perform on an android device: Search for the best custom wallets on Etsy. Image 29: 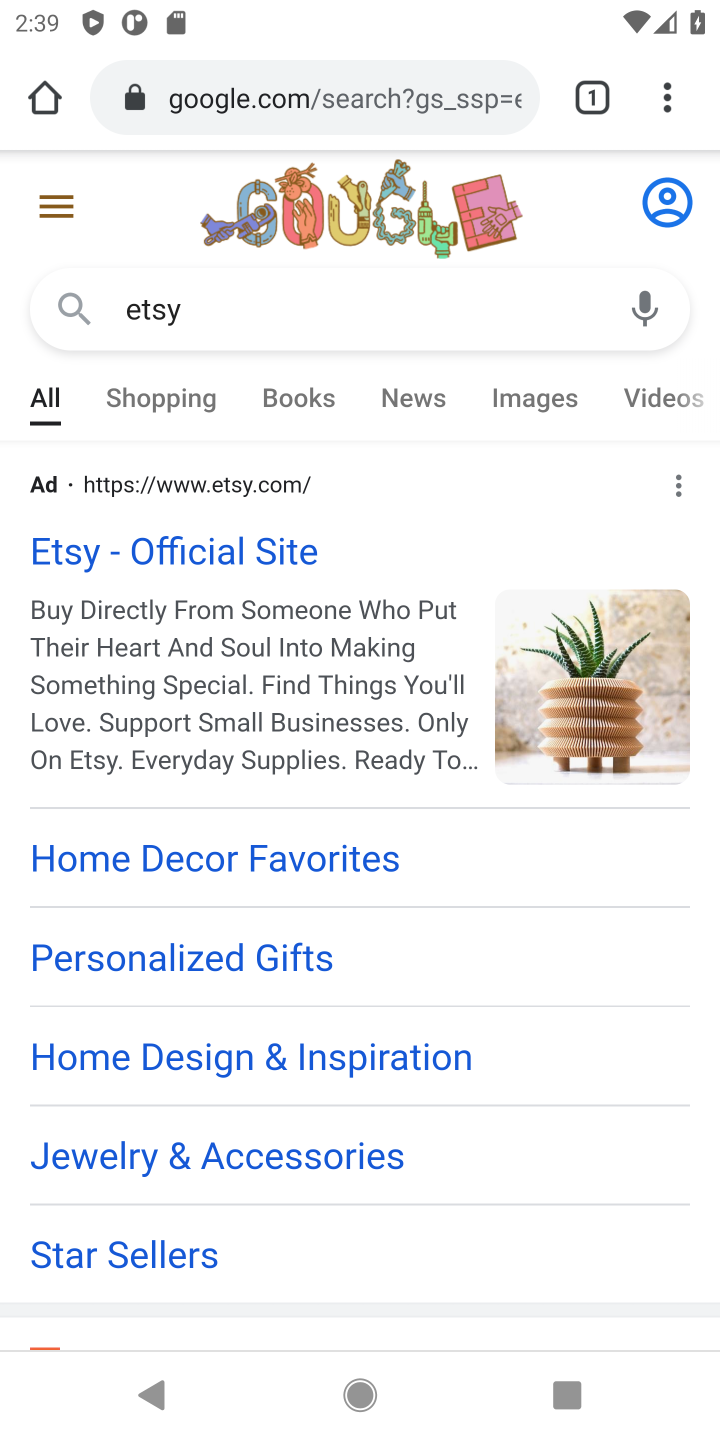
Step 29: click (170, 547)
Your task to perform on an android device: Search for the best custom wallets on Etsy. Image 30: 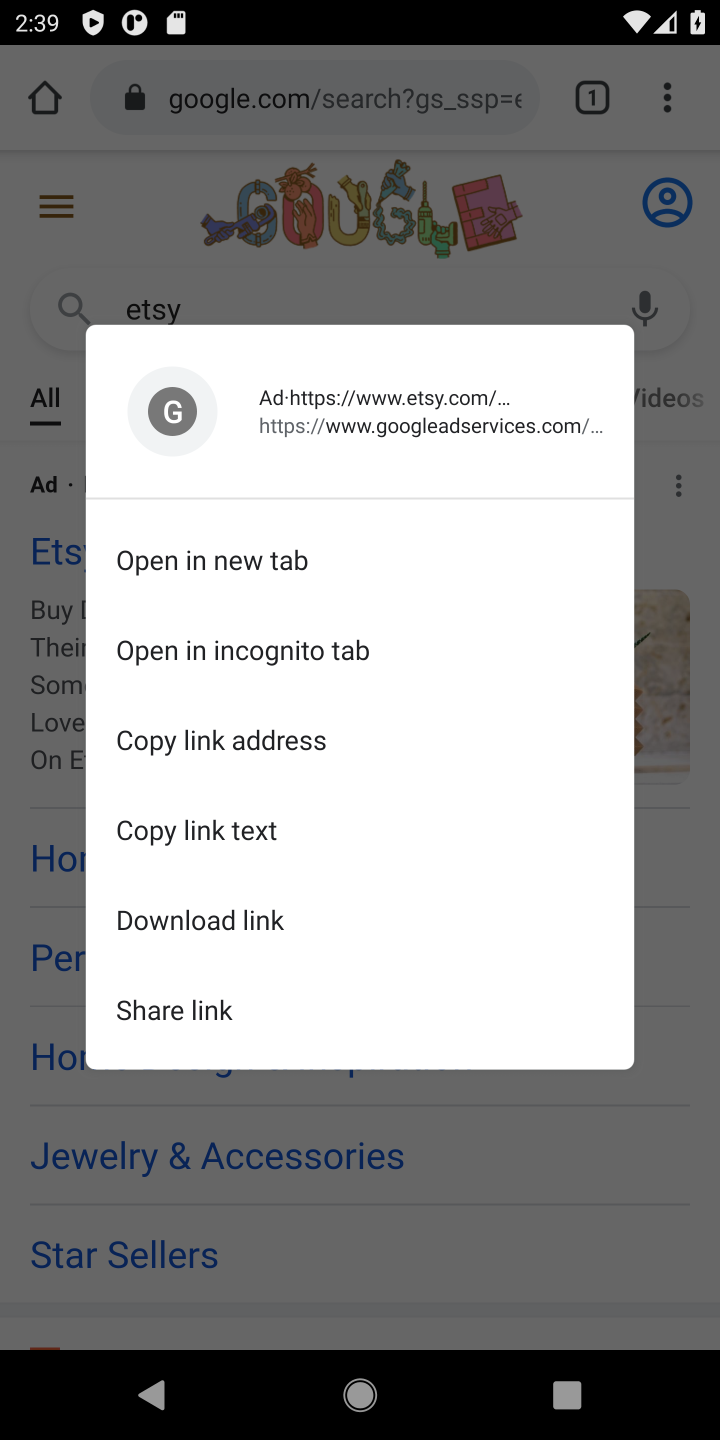
Step 30: click (698, 1107)
Your task to perform on an android device: Search for the best custom wallets on Etsy. Image 31: 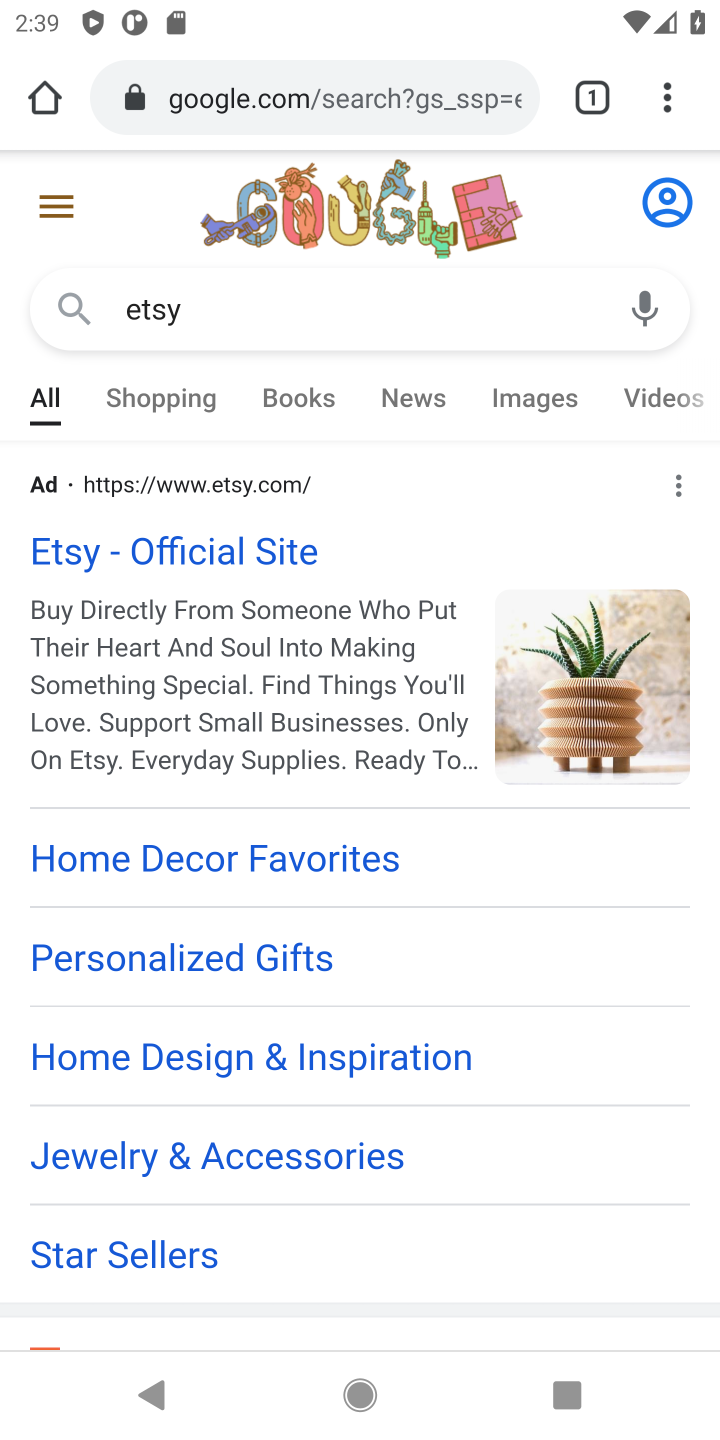
Step 31: drag from (195, 1239) to (235, 576)
Your task to perform on an android device: Search for the best custom wallets on Etsy. Image 32: 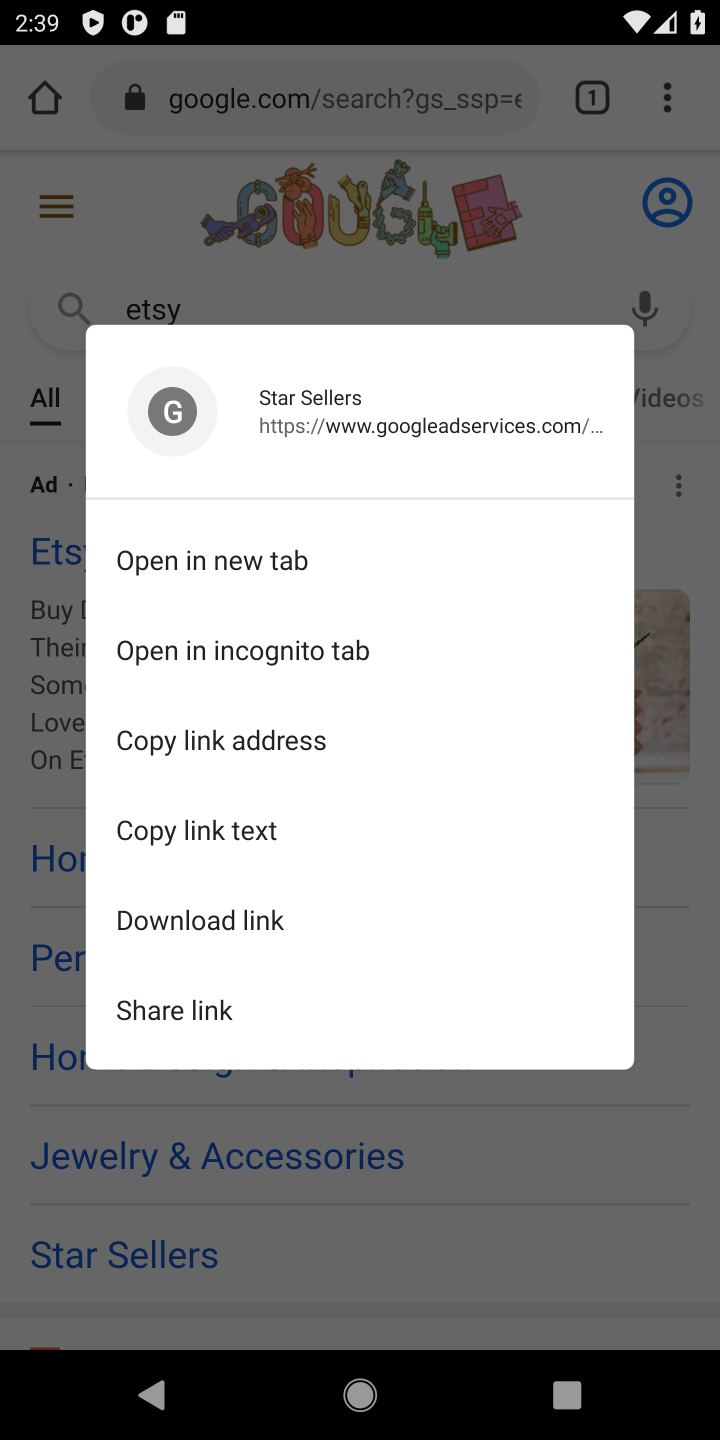
Step 32: click (713, 1068)
Your task to perform on an android device: Search for the best custom wallets on Etsy. Image 33: 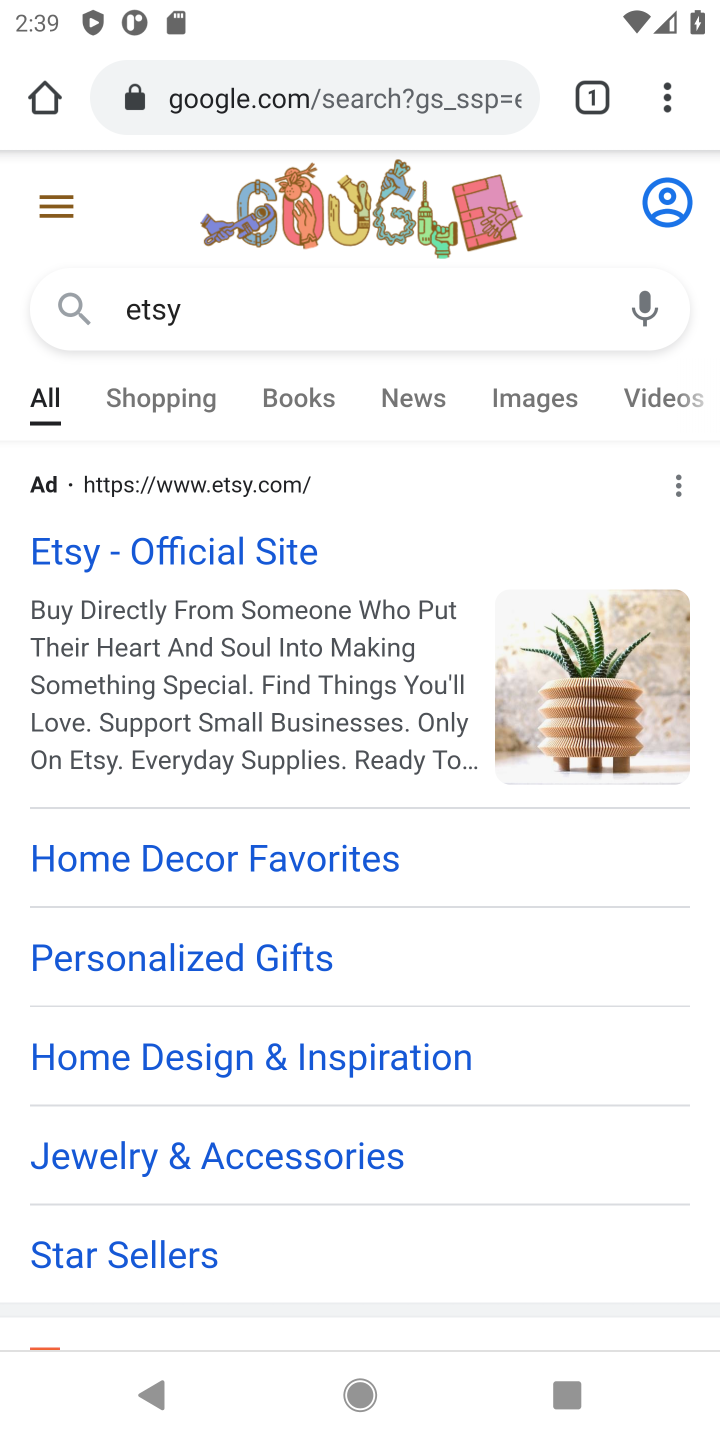
Step 33: drag from (228, 1155) to (274, 592)
Your task to perform on an android device: Search for the best custom wallets on Etsy. Image 34: 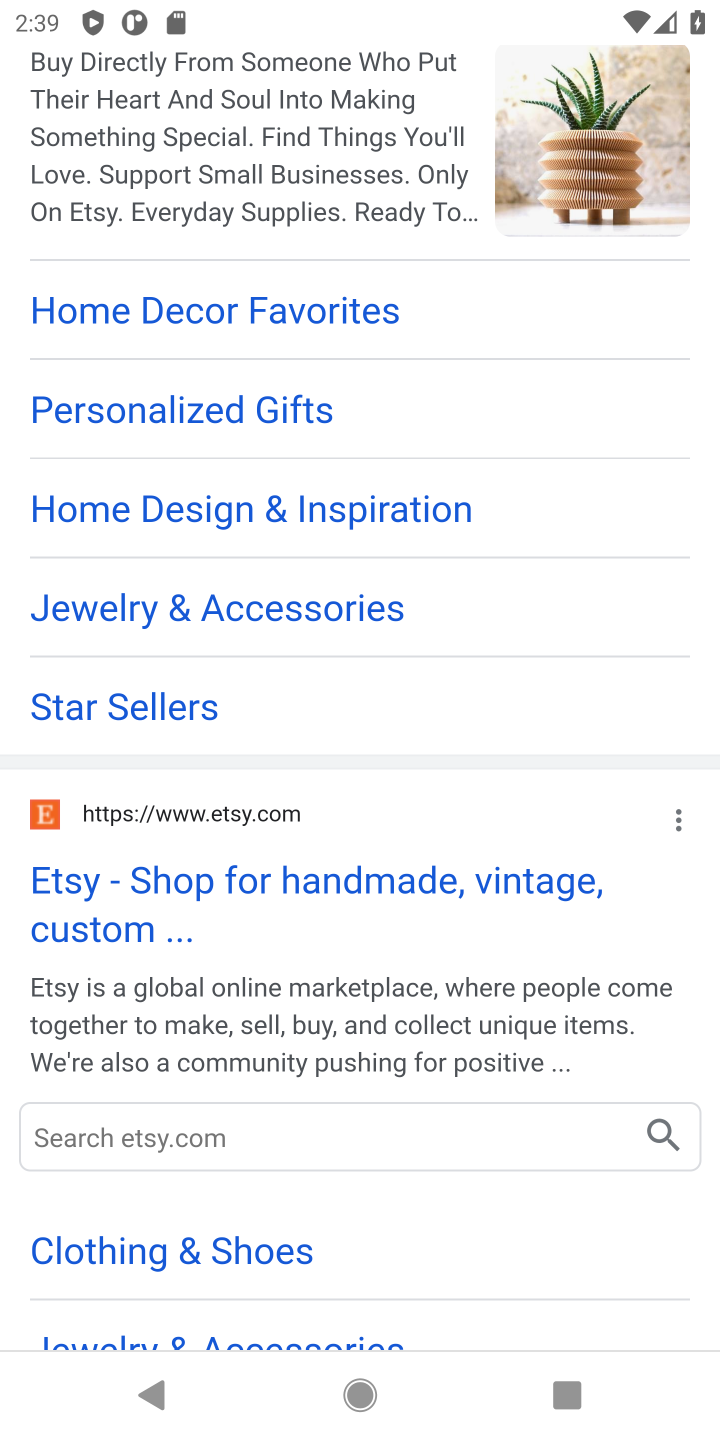
Step 34: click (184, 876)
Your task to perform on an android device: Search for the best custom wallets on Etsy. Image 35: 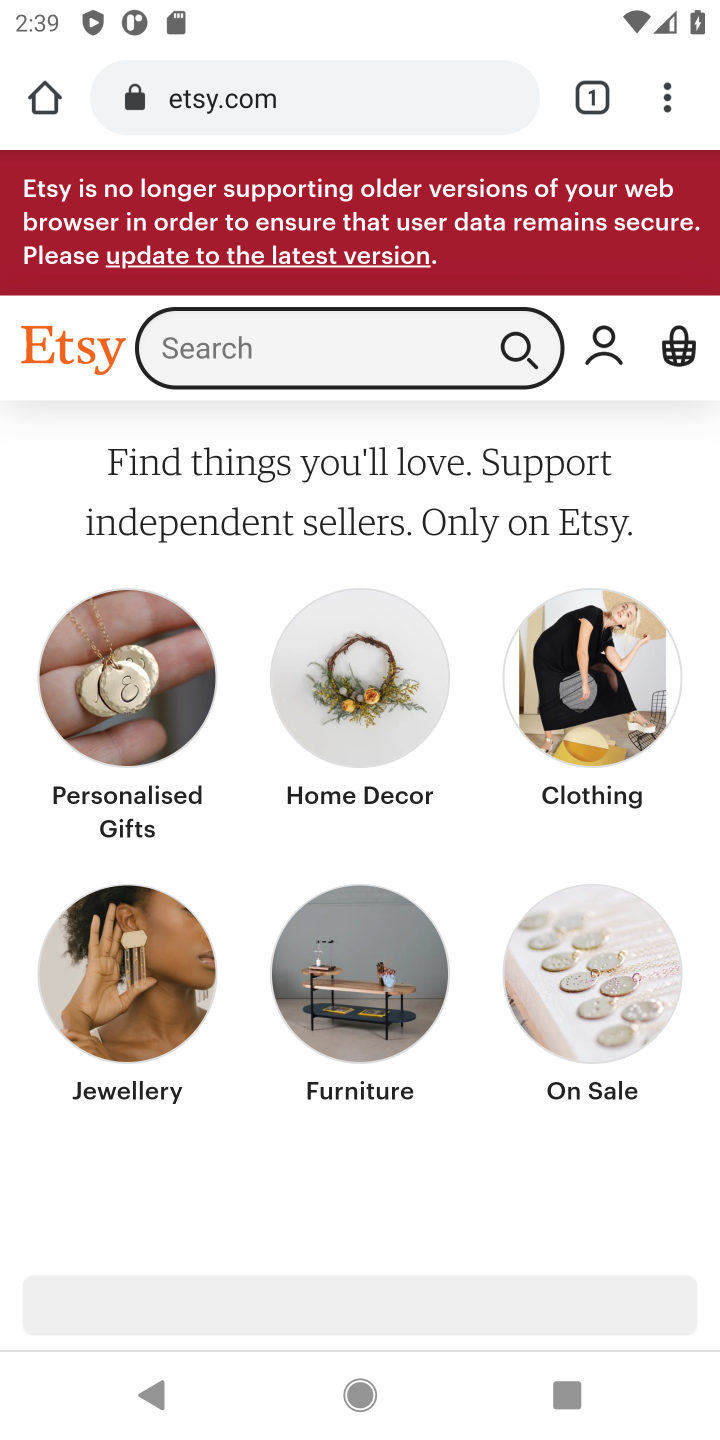
Step 35: click (322, 367)
Your task to perform on an android device: Search for the best custom wallets on Etsy. Image 36: 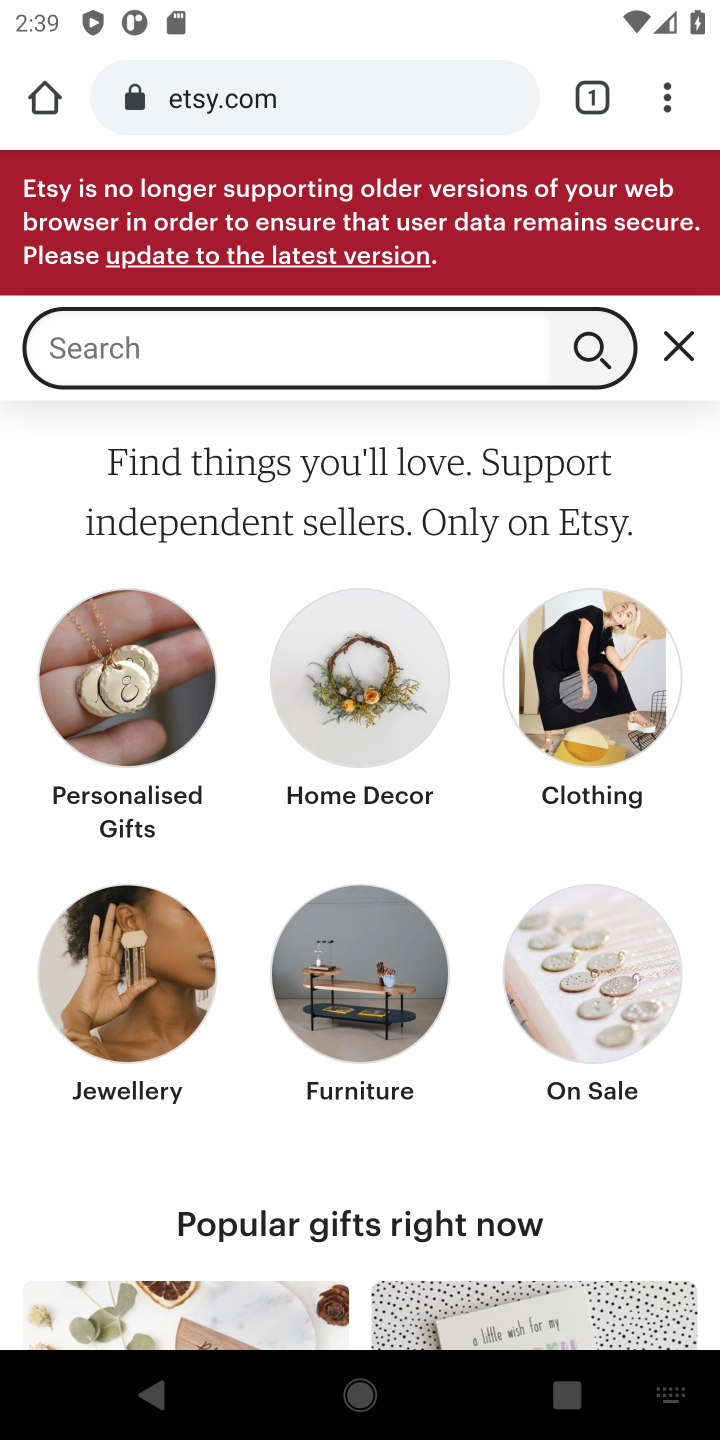
Step 36: type "etsy"
Your task to perform on an android device: Search for the best custom wallets on Etsy. Image 37: 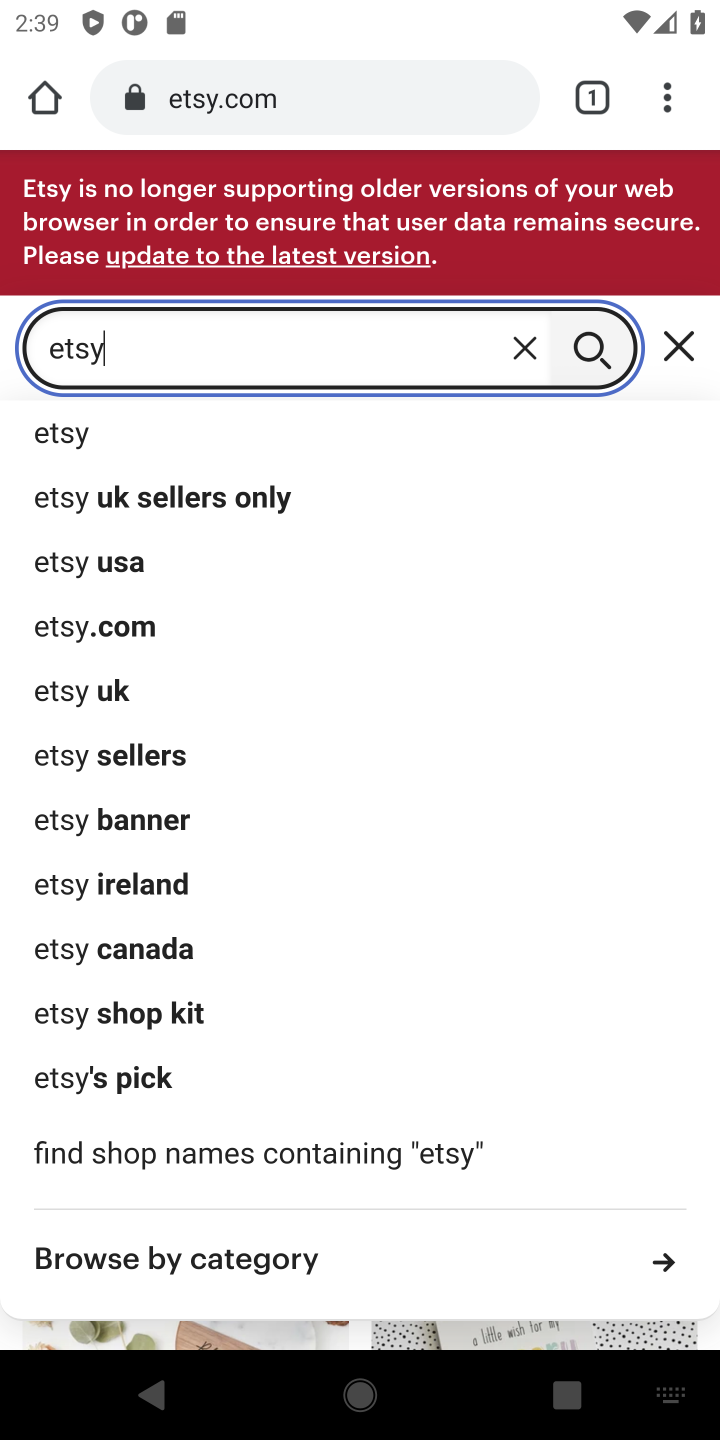
Step 37: click (66, 437)
Your task to perform on an android device: Search for the best custom wallets on Etsy. Image 38: 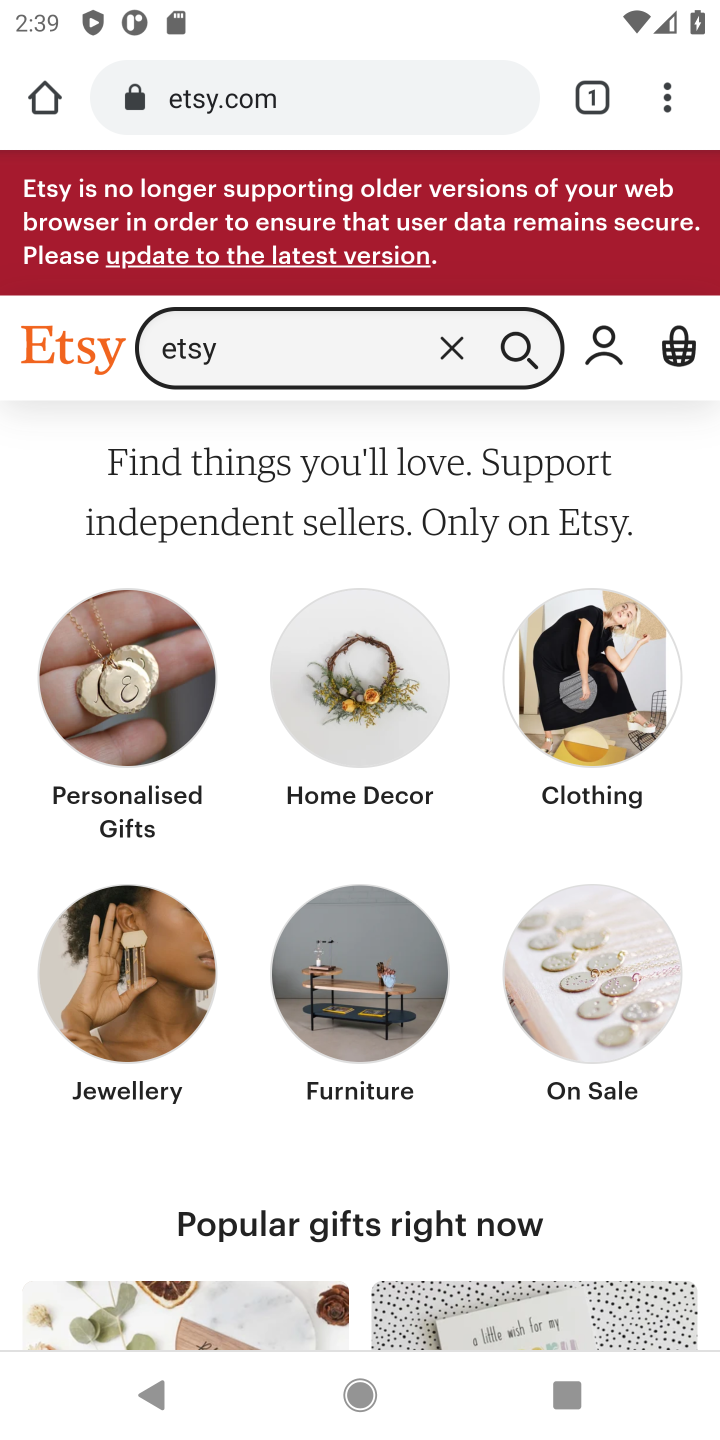
Step 38: drag from (336, 345) to (448, 351)
Your task to perform on an android device: Search for the best custom wallets on Etsy. Image 39: 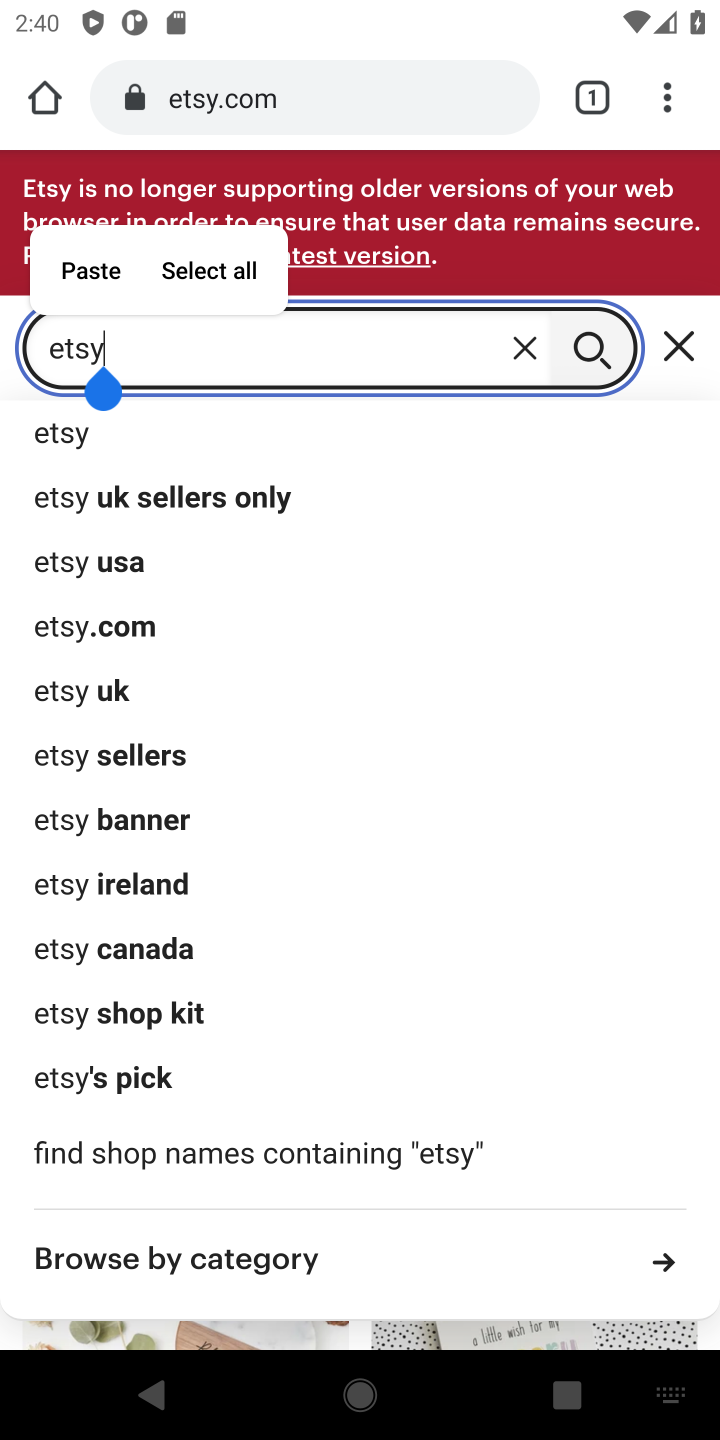
Step 39: click (516, 349)
Your task to perform on an android device: Search for the best custom wallets on Etsy. Image 40: 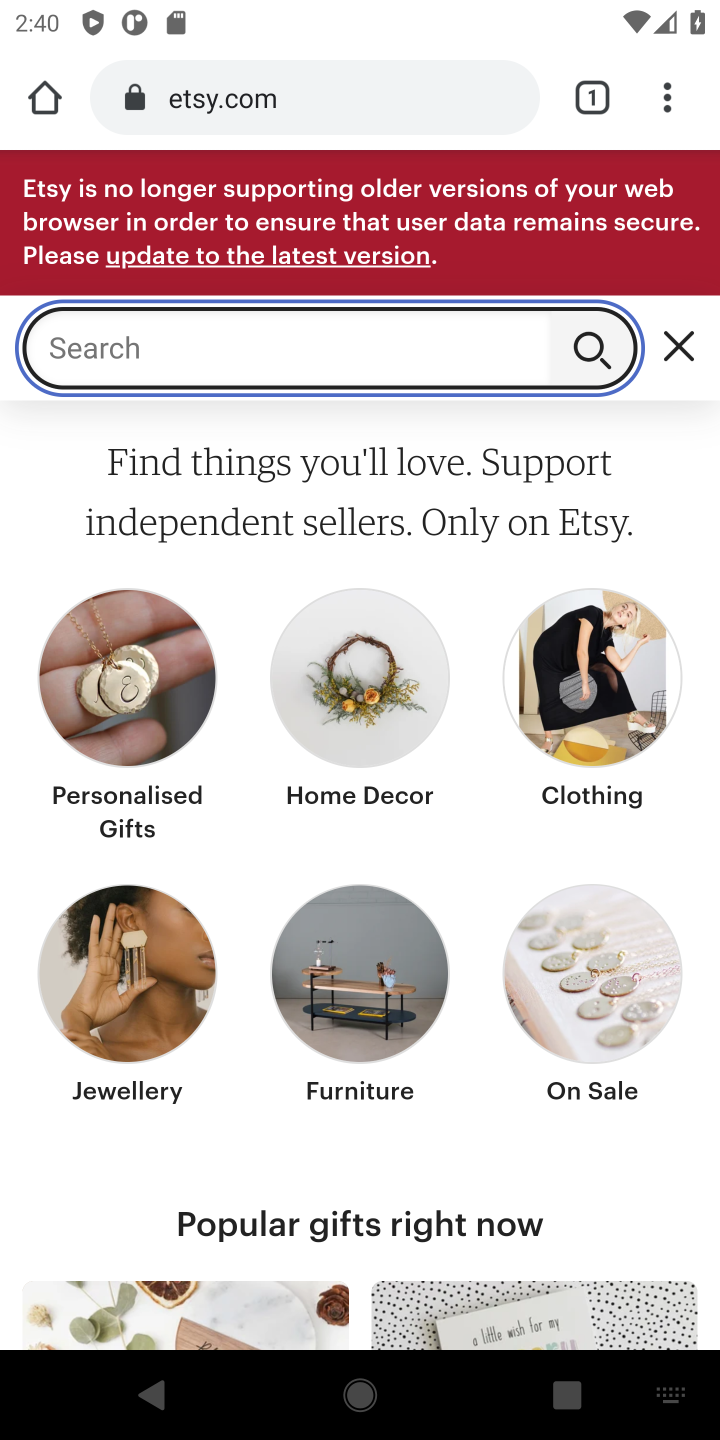
Step 40: type "custom wallet"
Your task to perform on an android device: Search for the best custom wallets on Etsy. Image 41: 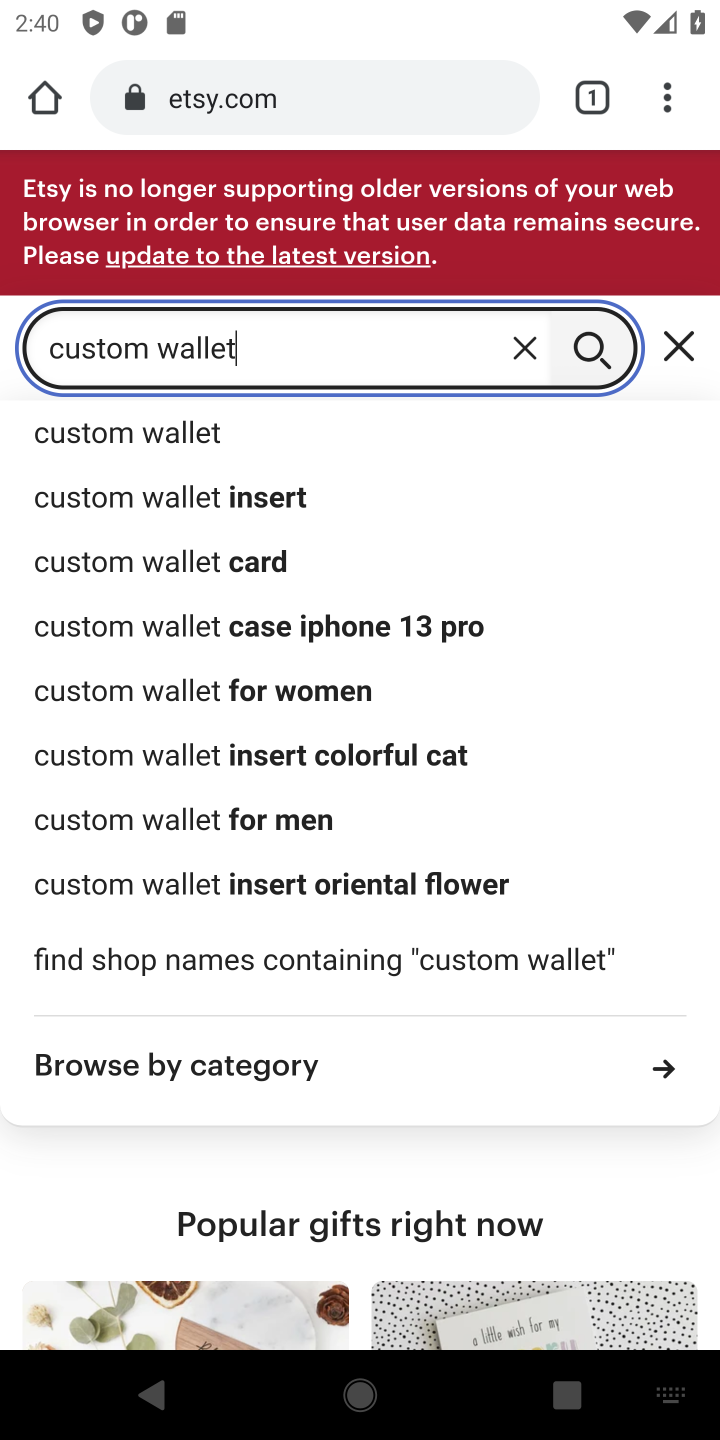
Step 41: click (108, 437)
Your task to perform on an android device: Search for the best custom wallets on Etsy. Image 42: 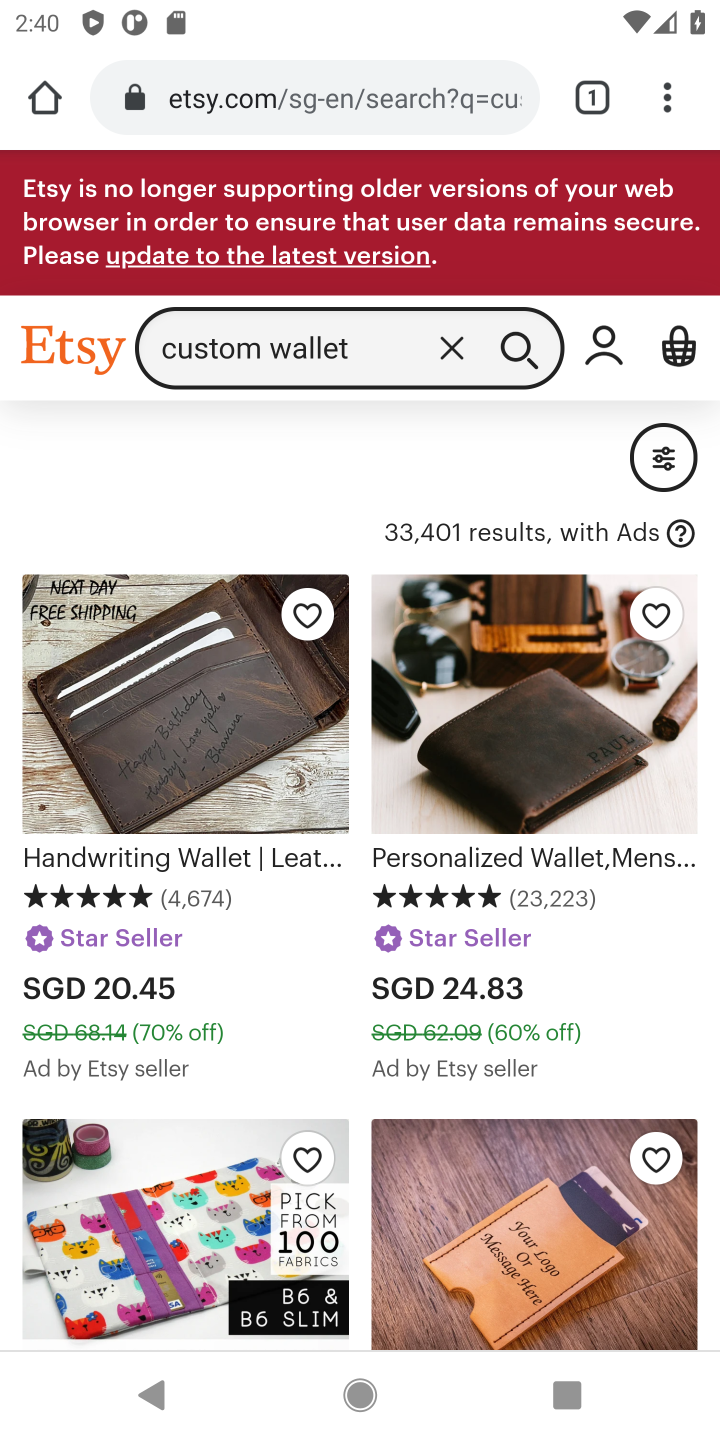
Step 42: click (292, 522)
Your task to perform on an android device: Search for the best custom wallets on Etsy. Image 43: 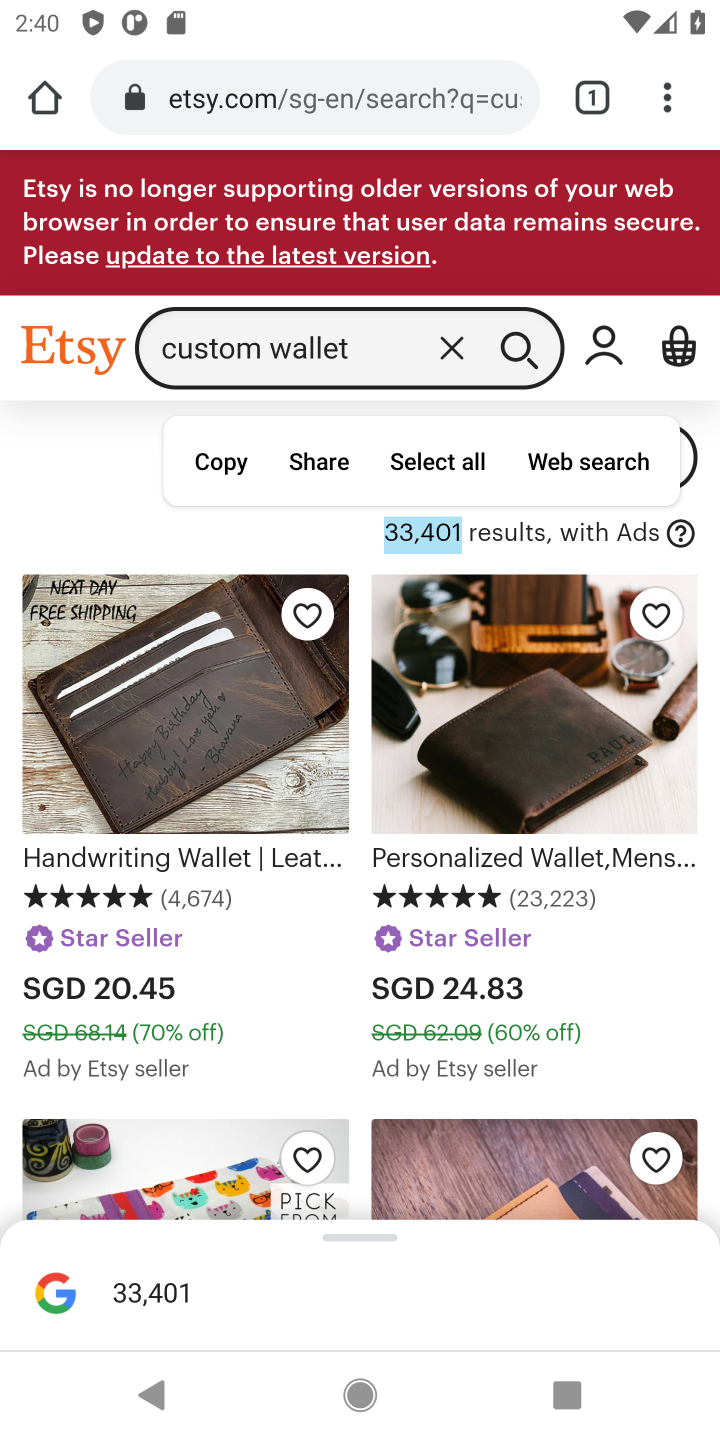
Step 43: click (656, 329)
Your task to perform on an android device: Search for the best custom wallets on Etsy. Image 44: 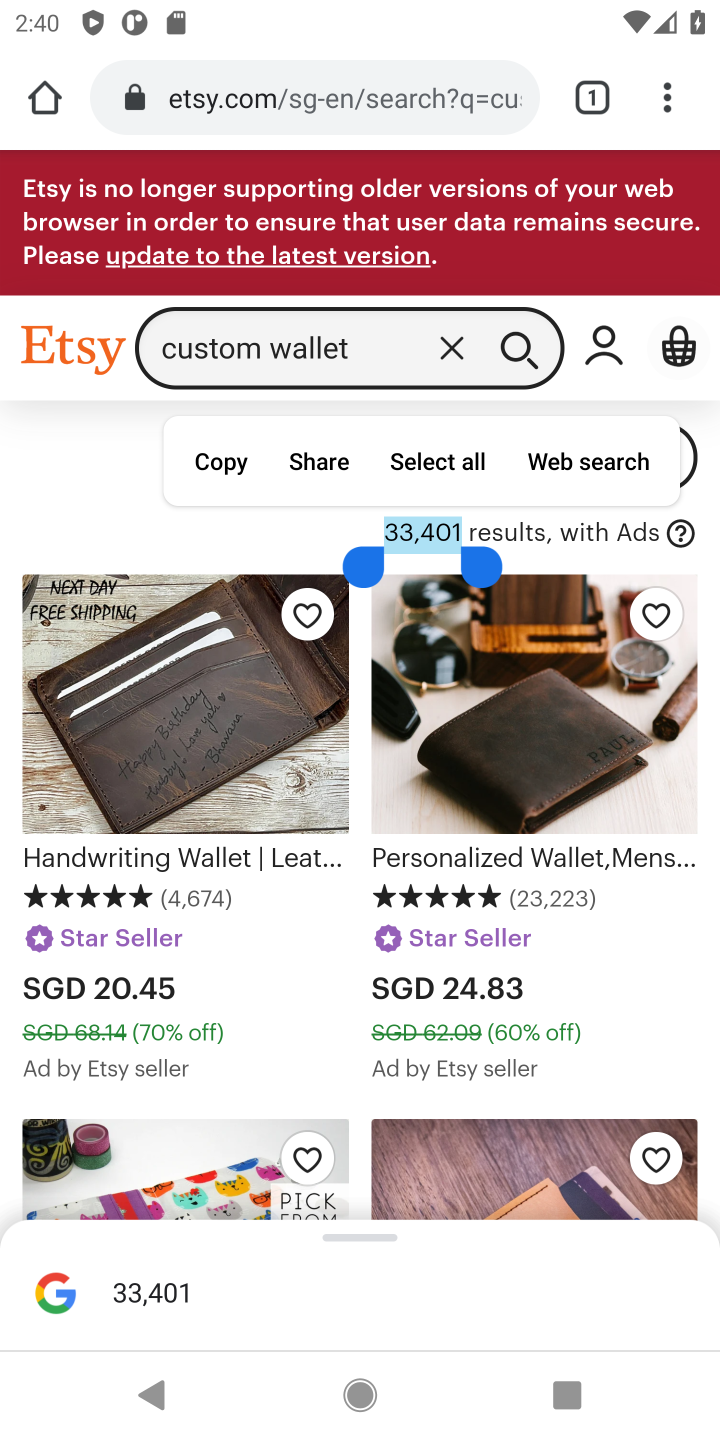
Step 44: drag from (518, 766) to (580, 362)
Your task to perform on an android device: Search for the best custom wallets on Etsy. Image 45: 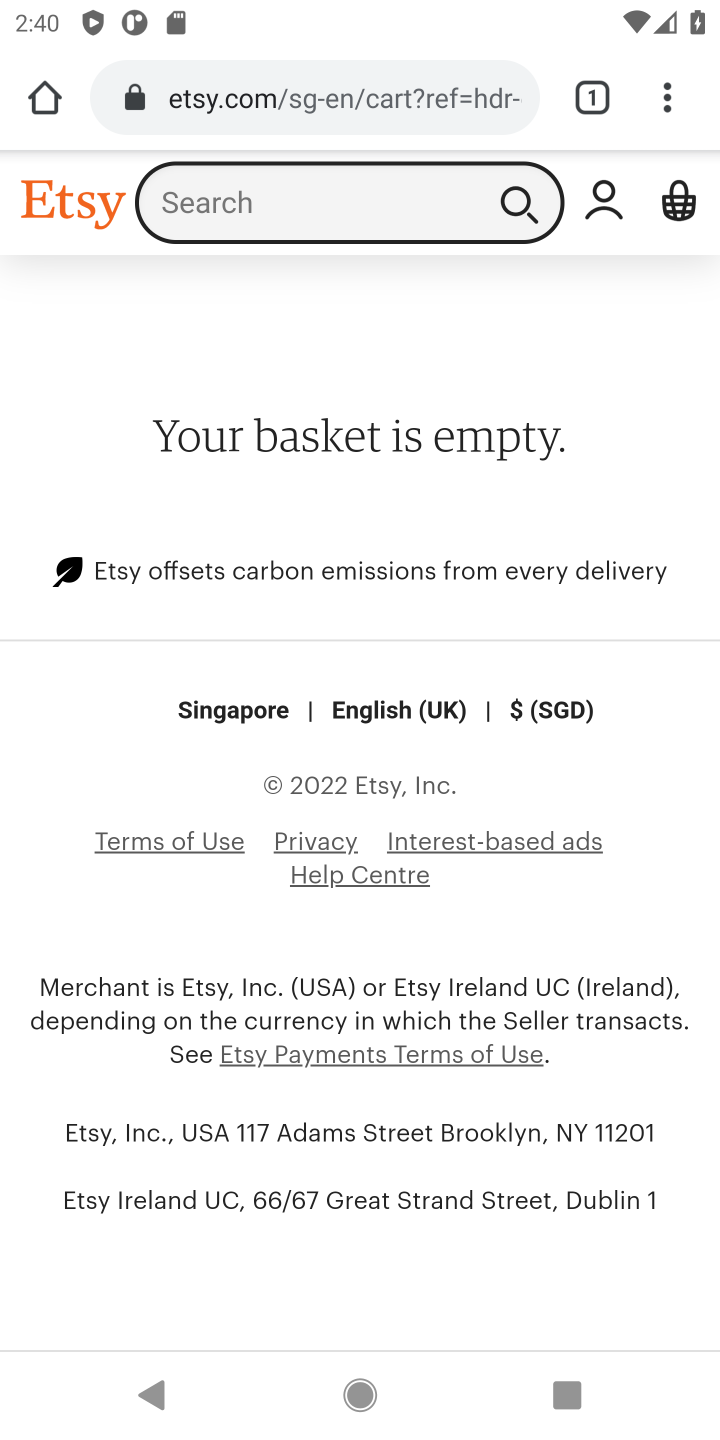
Step 45: click (333, 190)
Your task to perform on an android device: Search for the best custom wallets on Etsy. Image 46: 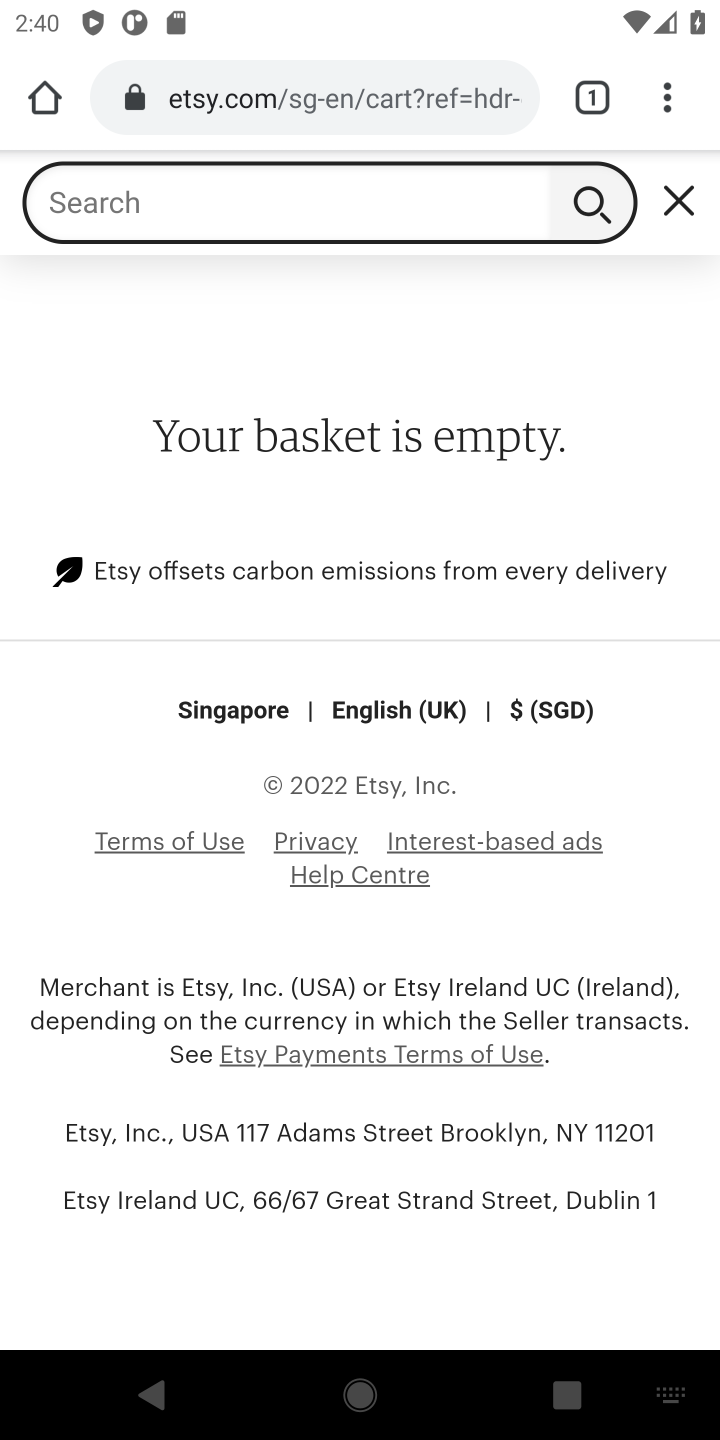
Step 46: task complete